Your task to perform on an android device: Search for usb-c to usb-a on walmart, select the first entry, add it to the cart, then select checkout. Image 0: 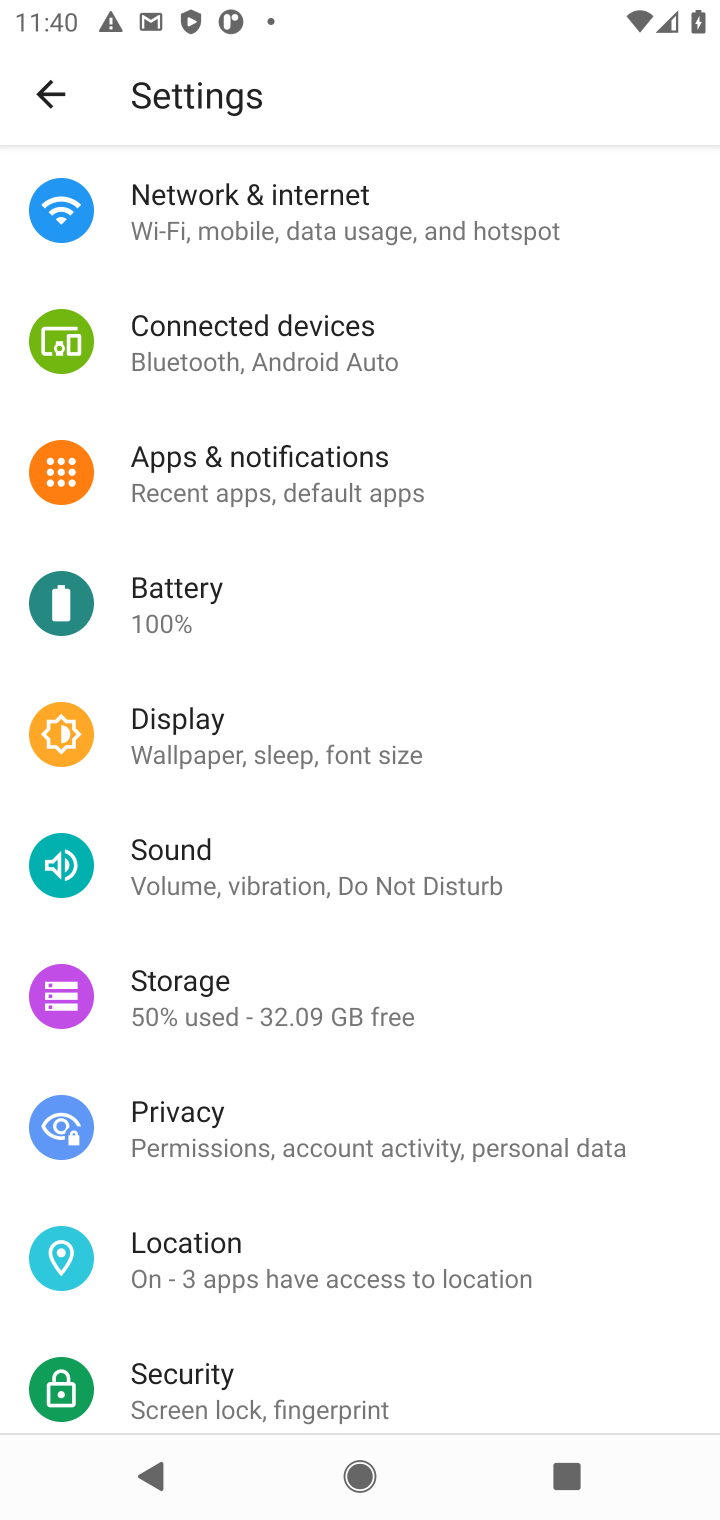
Step 0: press home button
Your task to perform on an android device: Search for usb-c to usb-a on walmart, select the first entry, add it to the cart, then select checkout. Image 1: 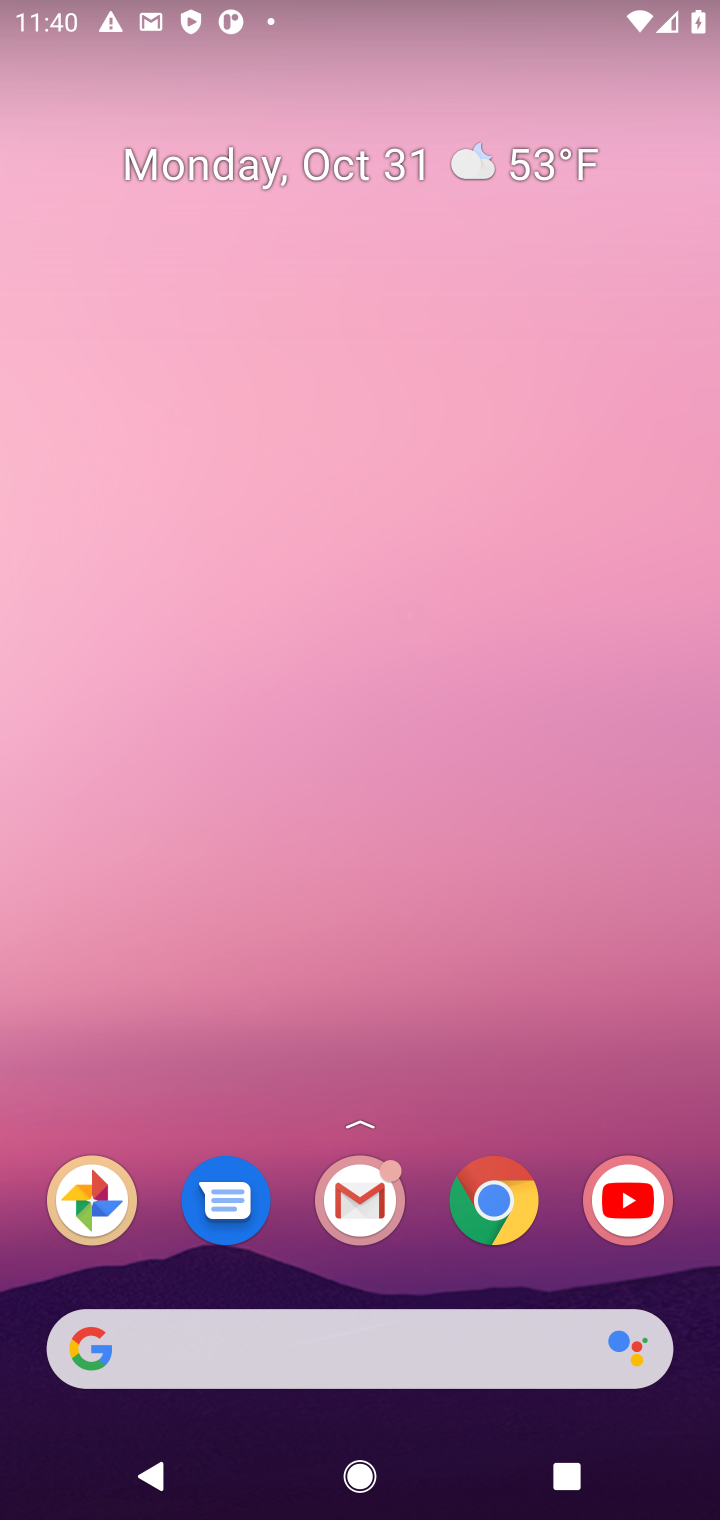
Step 1: click (496, 1204)
Your task to perform on an android device: Search for usb-c to usb-a on walmart, select the first entry, add it to the cart, then select checkout. Image 2: 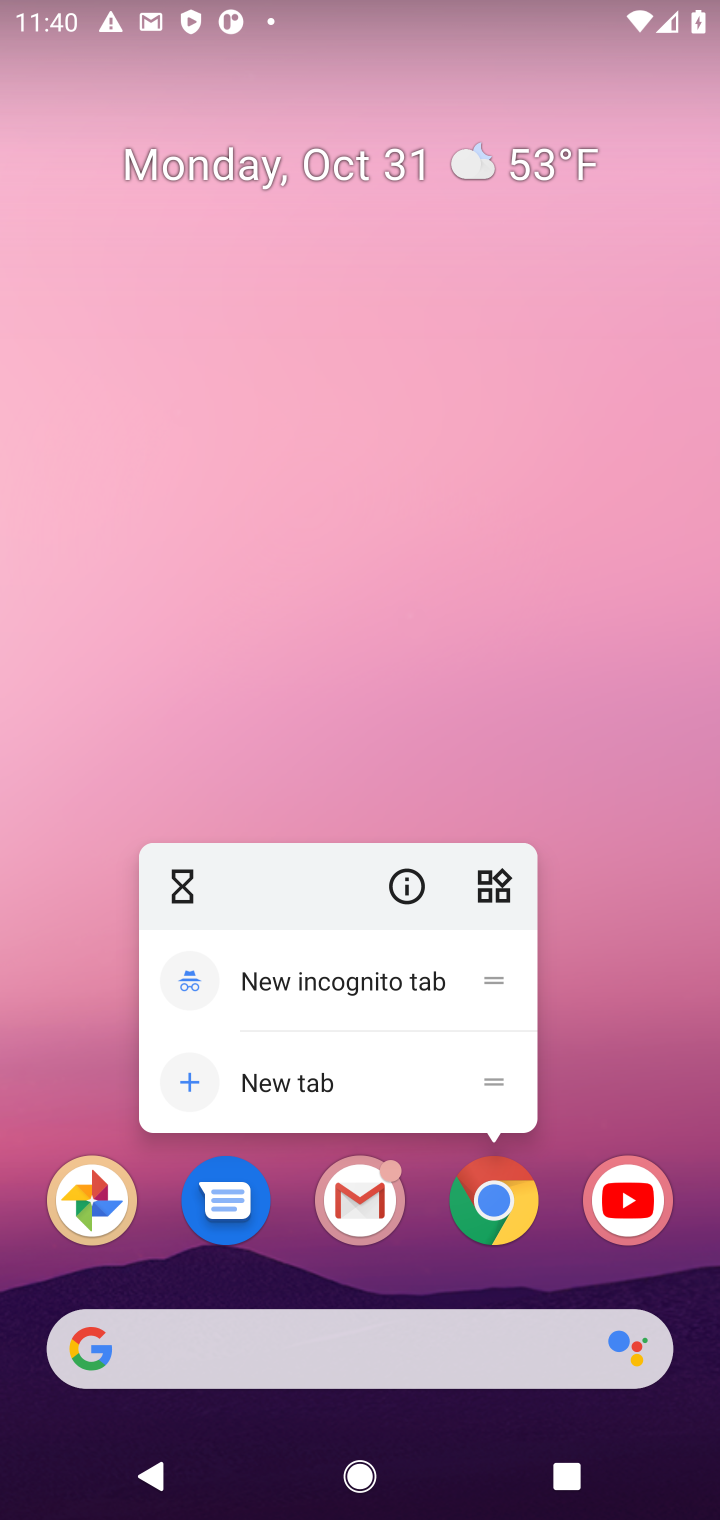
Step 2: click (502, 1211)
Your task to perform on an android device: Search for usb-c to usb-a on walmart, select the first entry, add it to the cart, then select checkout. Image 3: 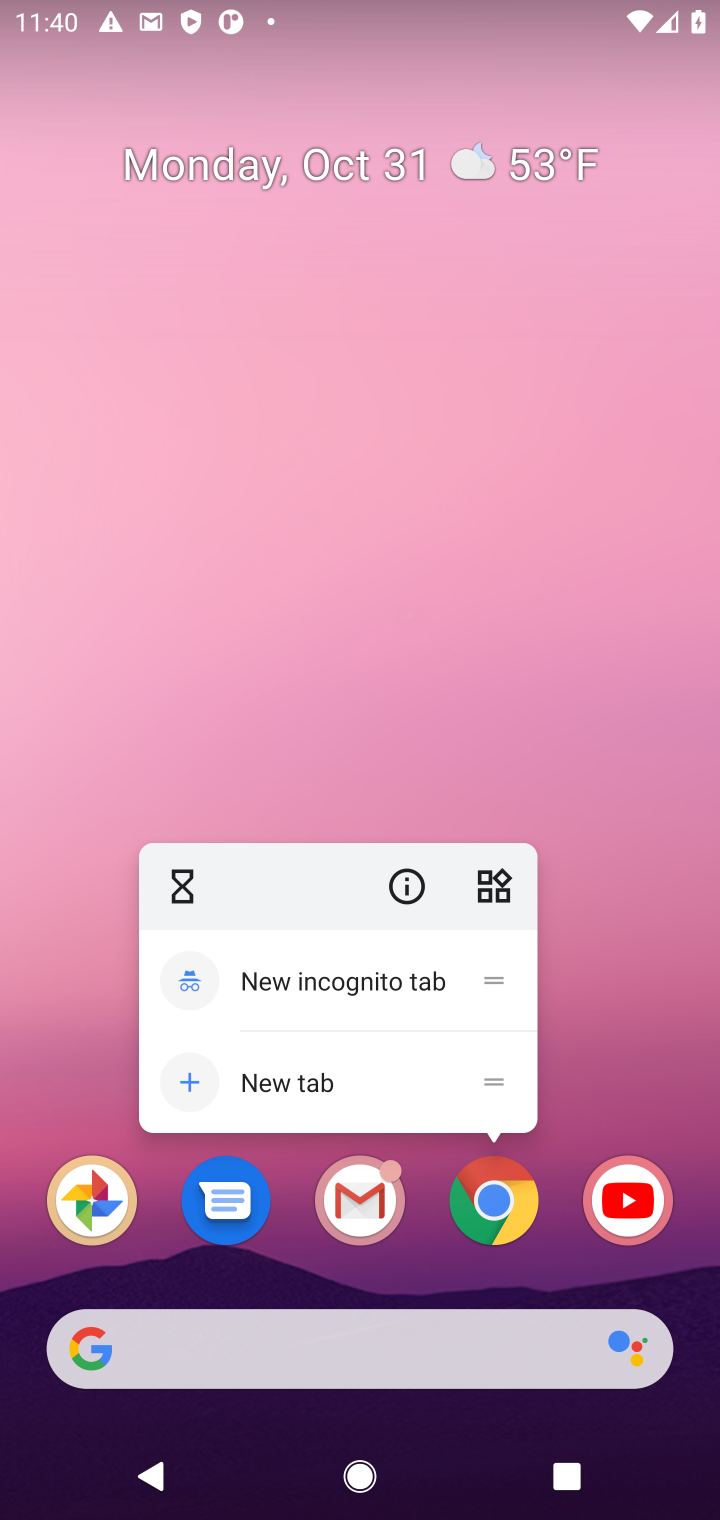
Step 3: click (494, 1234)
Your task to perform on an android device: Search for usb-c to usb-a on walmart, select the first entry, add it to the cart, then select checkout. Image 4: 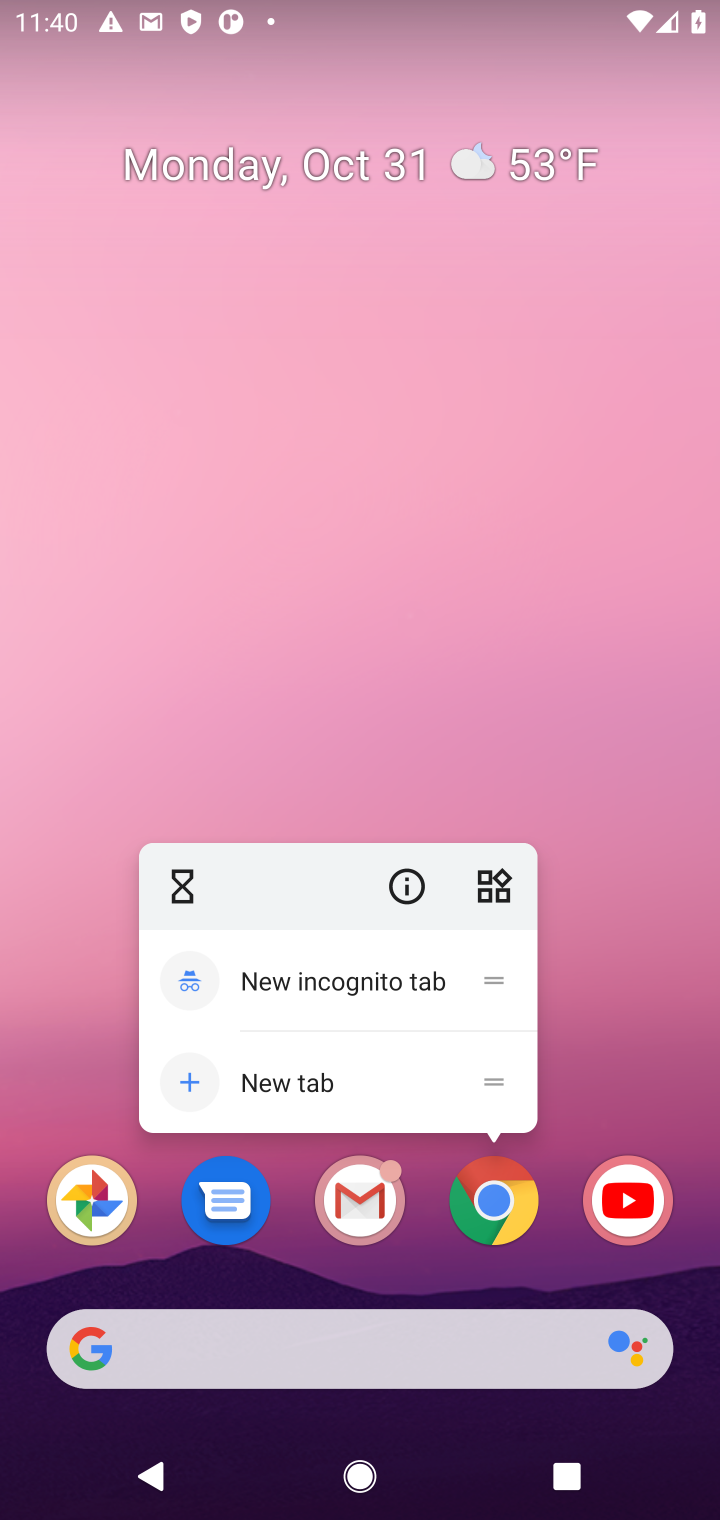
Step 4: click (496, 1216)
Your task to perform on an android device: Search for usb-c to usb-a on walmart, select the first entry, add it to the cart, then select checkout. Image 5: 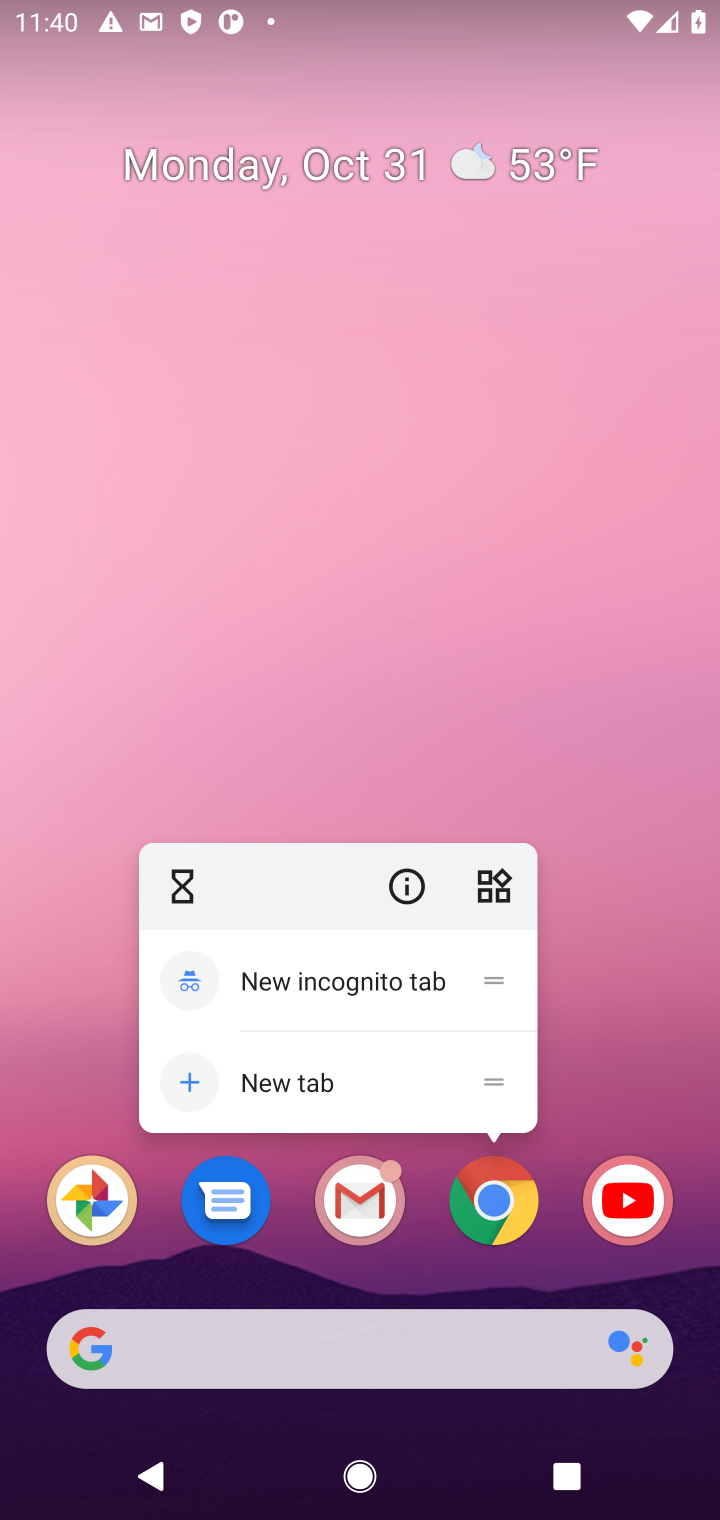
Step 5: click (502, 1203)
Your task to perform on an android device: Search for usb-c to usb-a on walmart, select the first entry, add it to the cart, then select checkout. Image 6: 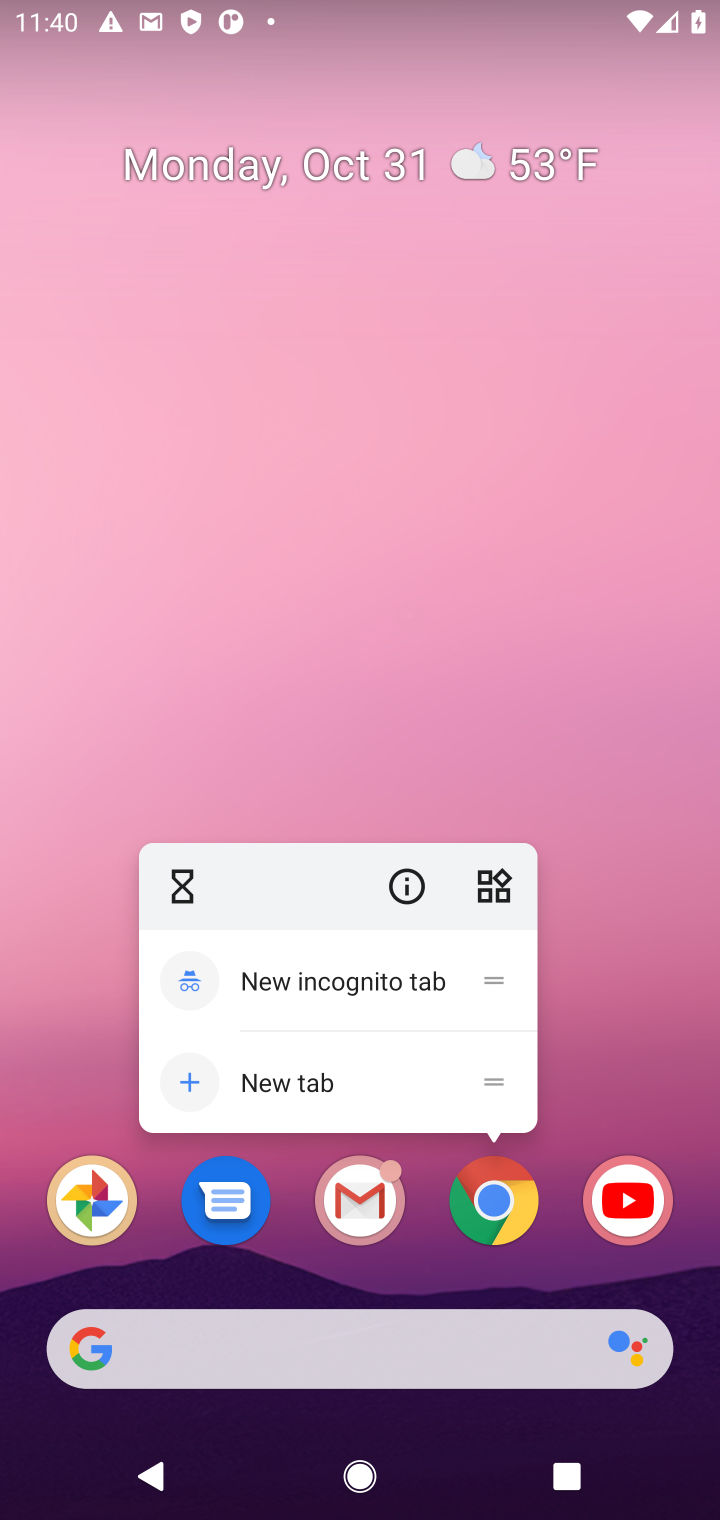
Step 6: click (503, 1213)
Your task to perform on an android device: Search for usb-c to usb-a on walmart, select the first entry, add it to the cart, then select checkout. Image 7: 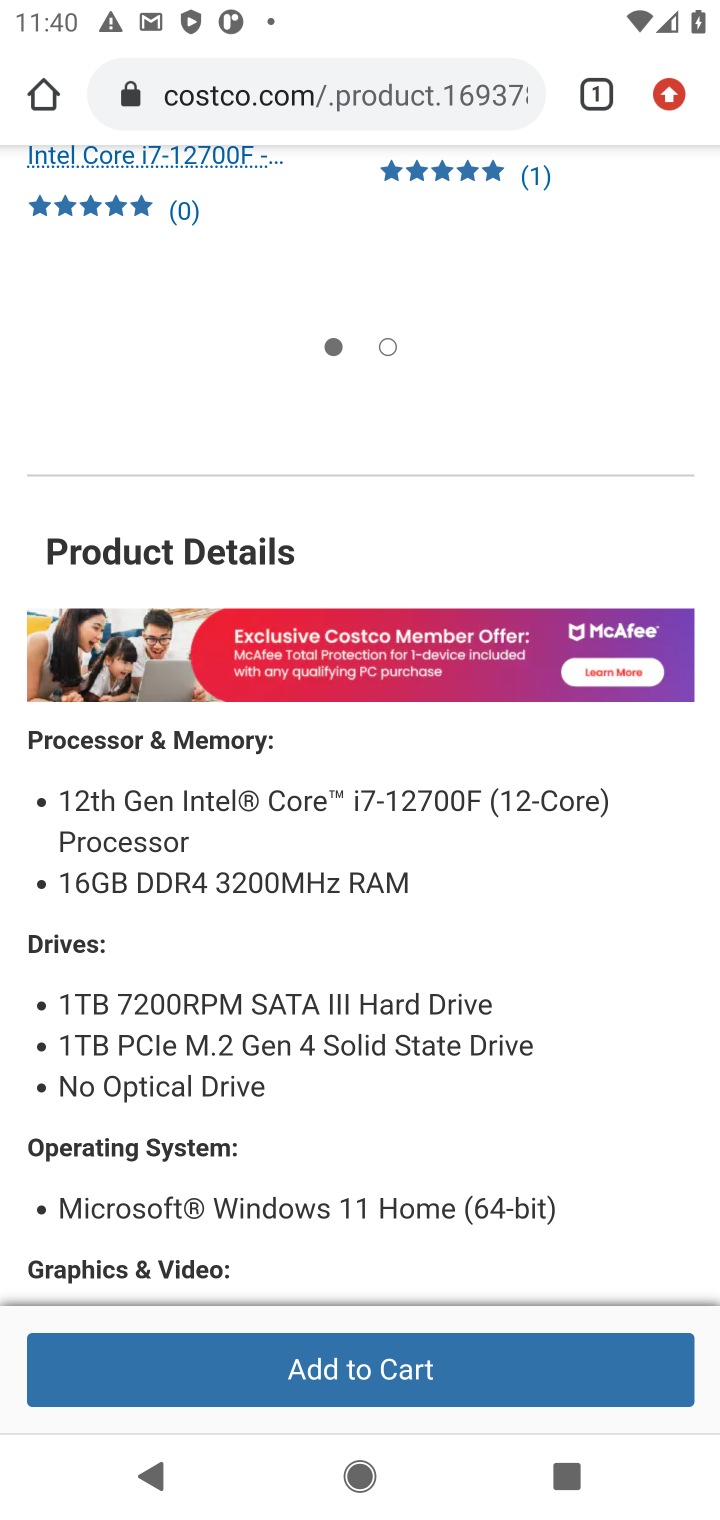
Step 7: click (499, 1231)
Your task to perform on an android device: Search for usb-c to usb-a on walmart, select the first entry, add it to the cart, then select checkout. Image 8: 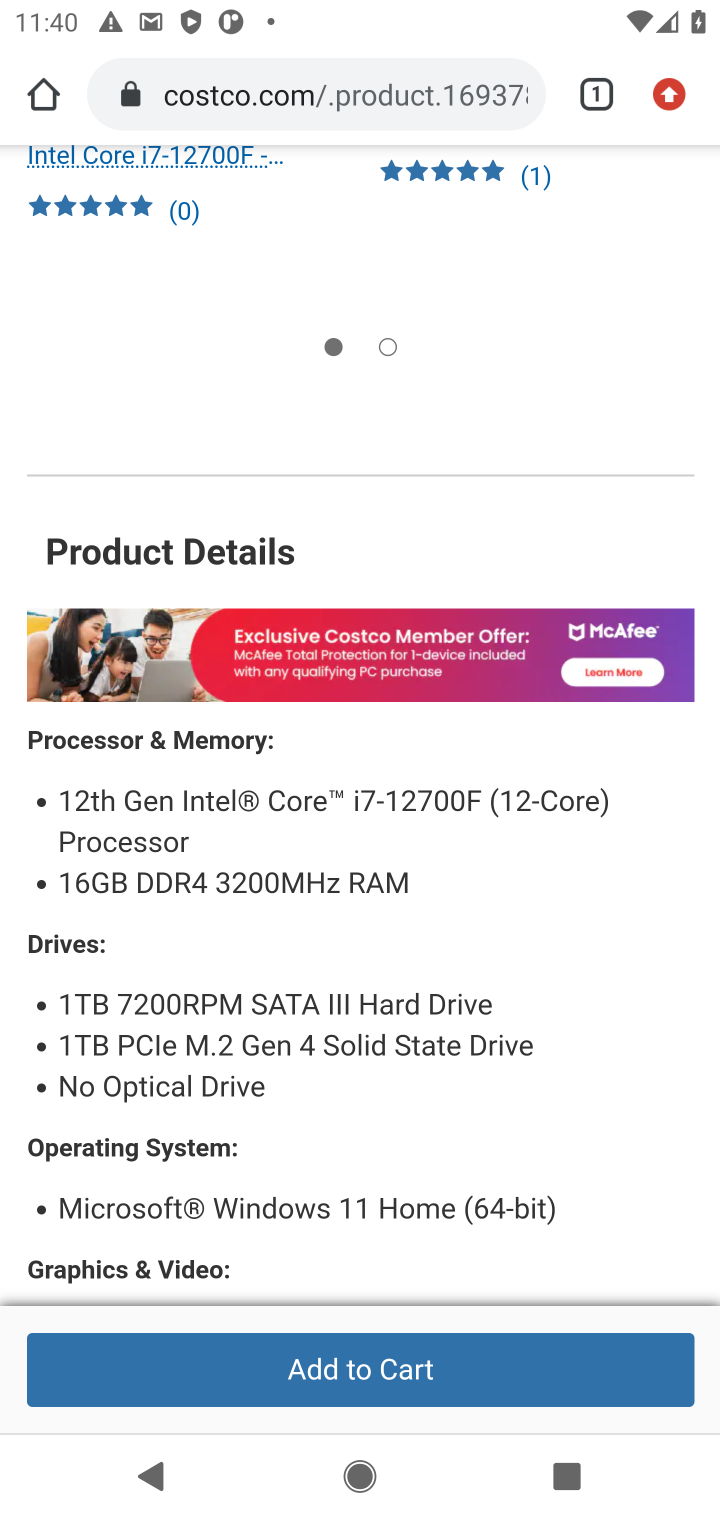
Step 8: click (174, 92)
Your task to perform on an android device: Search for usb-c to usb-a on walmart, select the first entry, add it to the cart, then select checkout. Image 9: 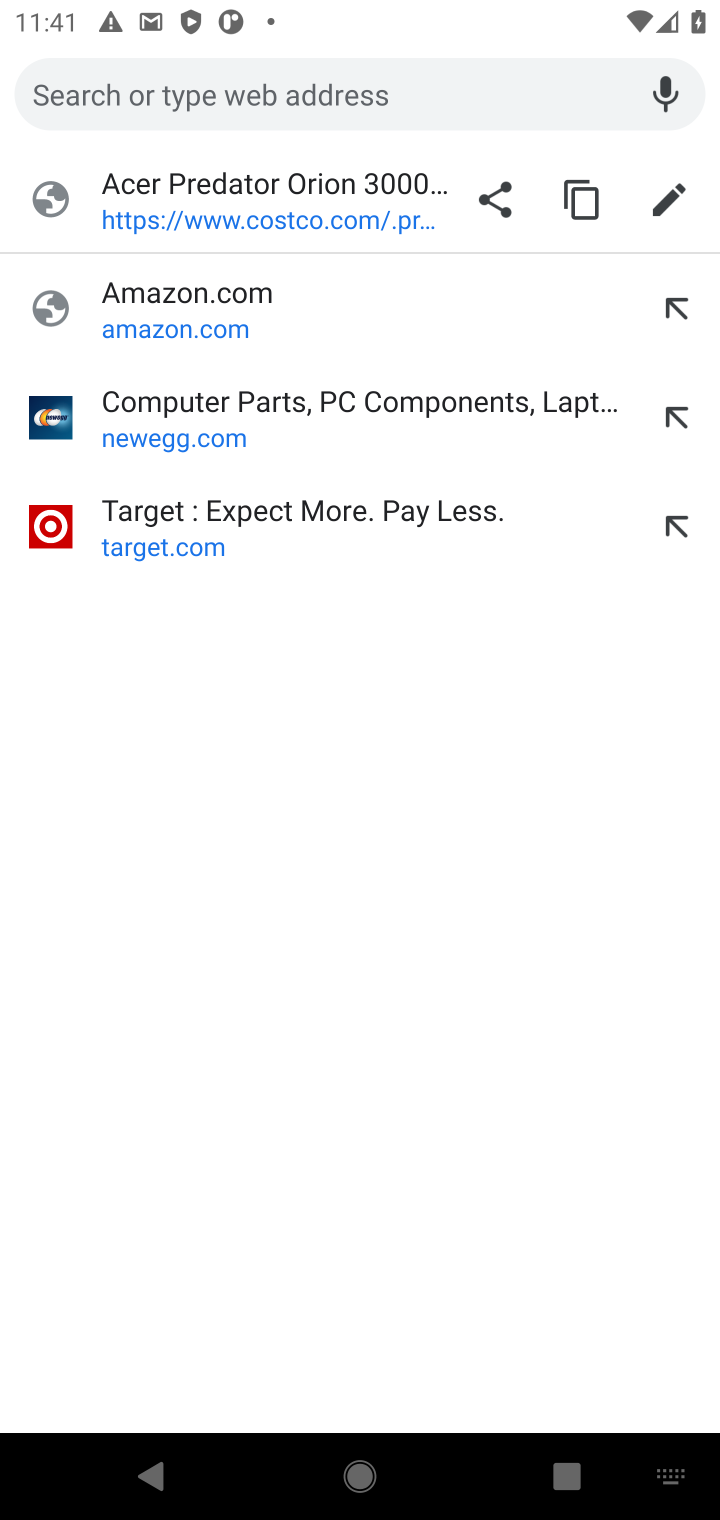
Step 9: type "walmart"
Your task to perform on an android device: Search for usb-c to usb-a on walmart, select the first entry, add it to the cart, then select checkout. Image 10: 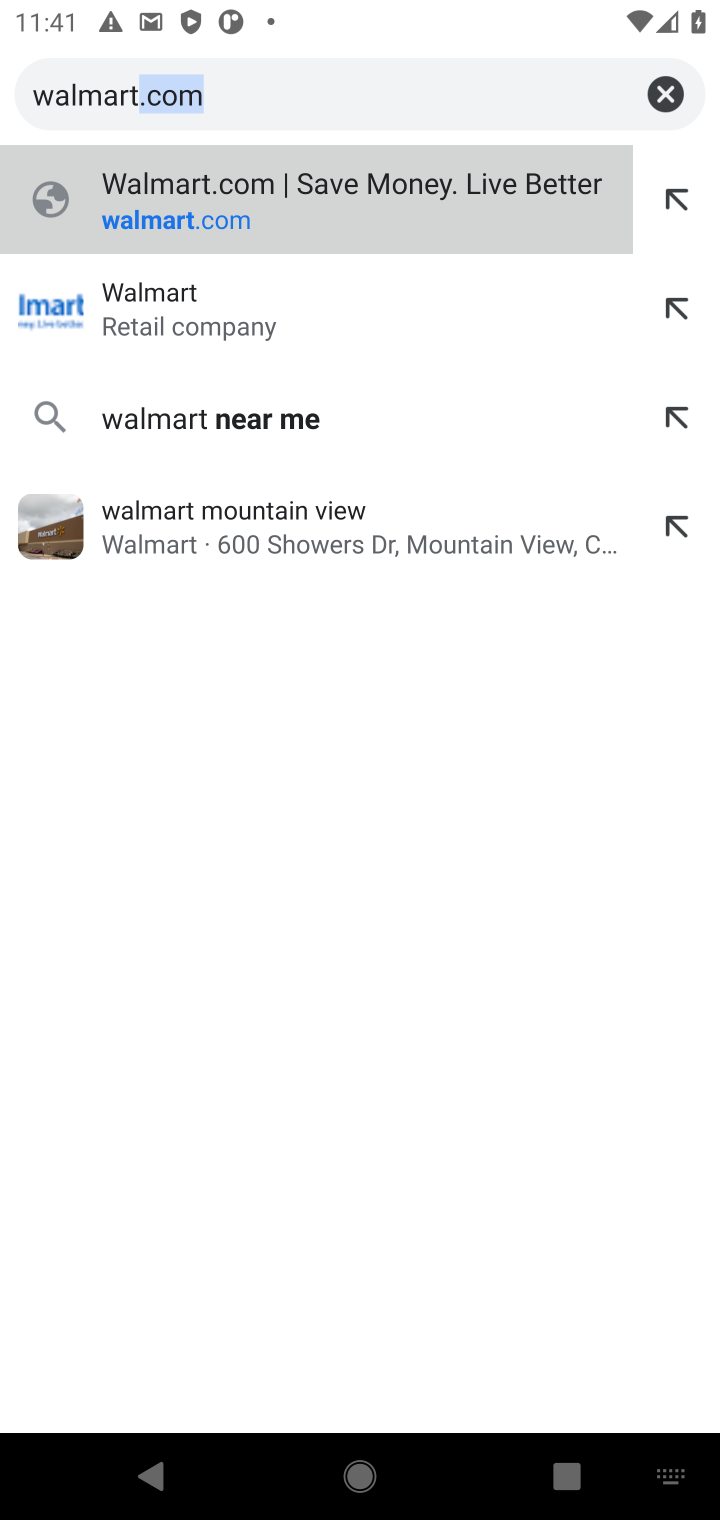
Step 10: type ""
Your task to perform on an android device: Search for usb-c to usb-a on walmart, select the first entry, add it to the cart, then select checkout. Image 11: 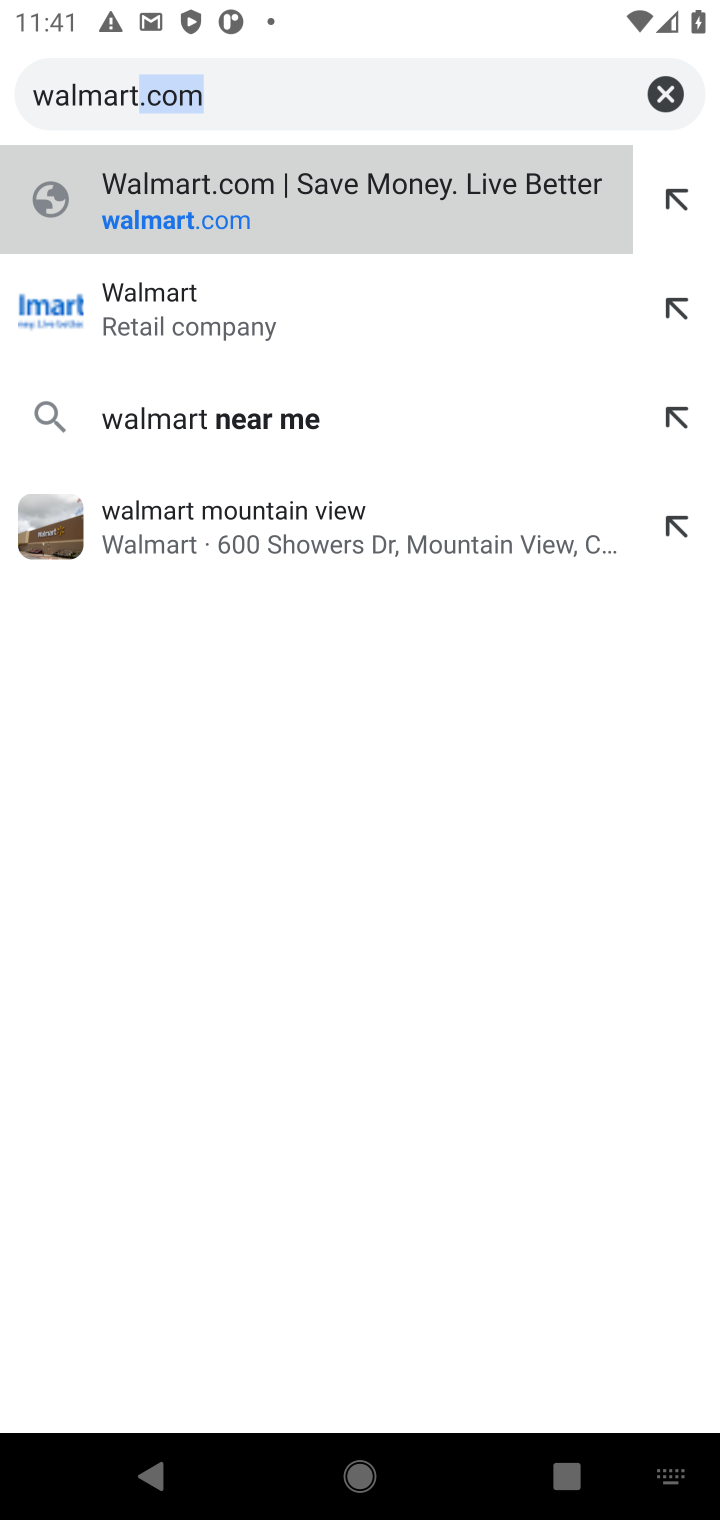
Step 11: click (444, 187)
Your task to perform on an android device: Search for usb-c to usb-a on walmart, select the first entry, add it to the cart, then select checkout. Image 12: 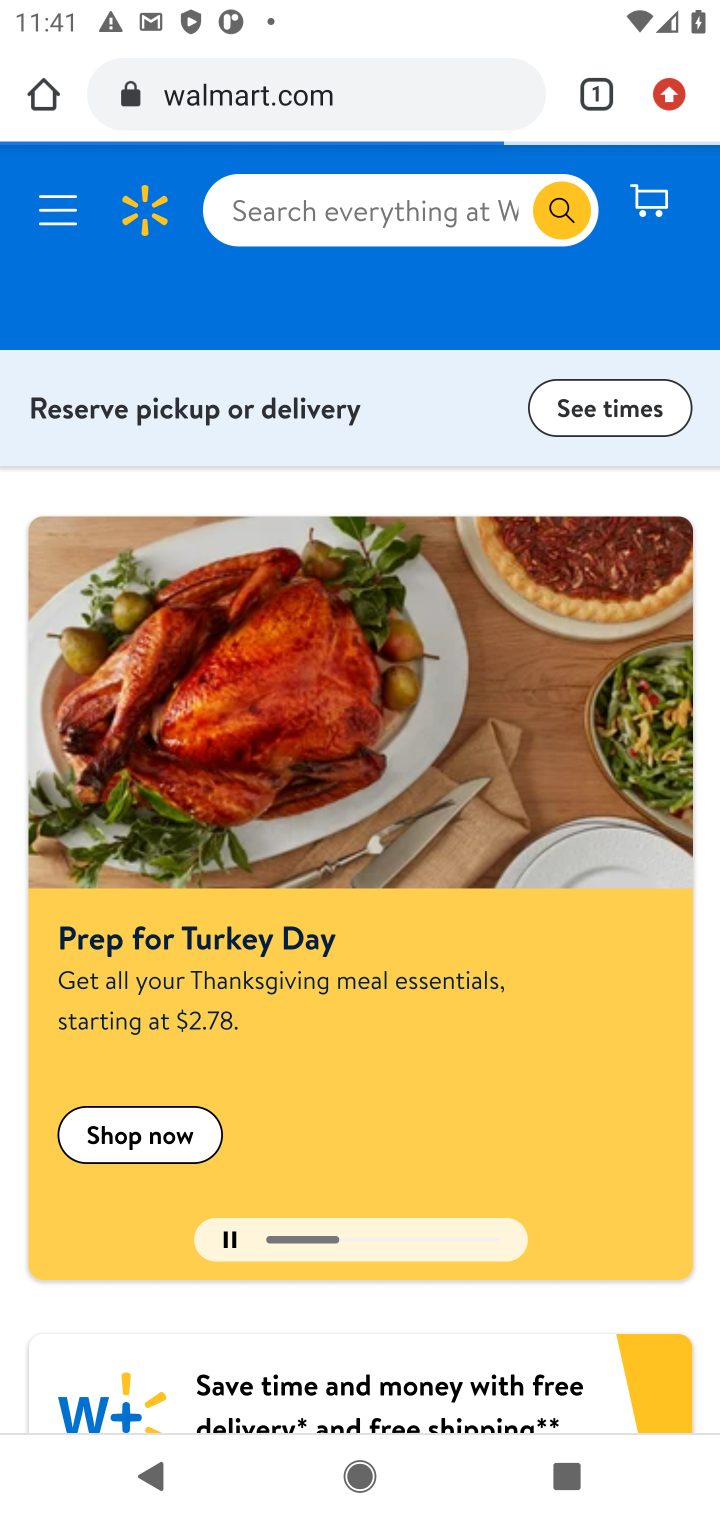
Step 12: click (420, 216)
Your task to perform on an android device: Search for usb-c to usb-a on walmart, select the first entry, add it to the cart, then select checkout. Image 13: 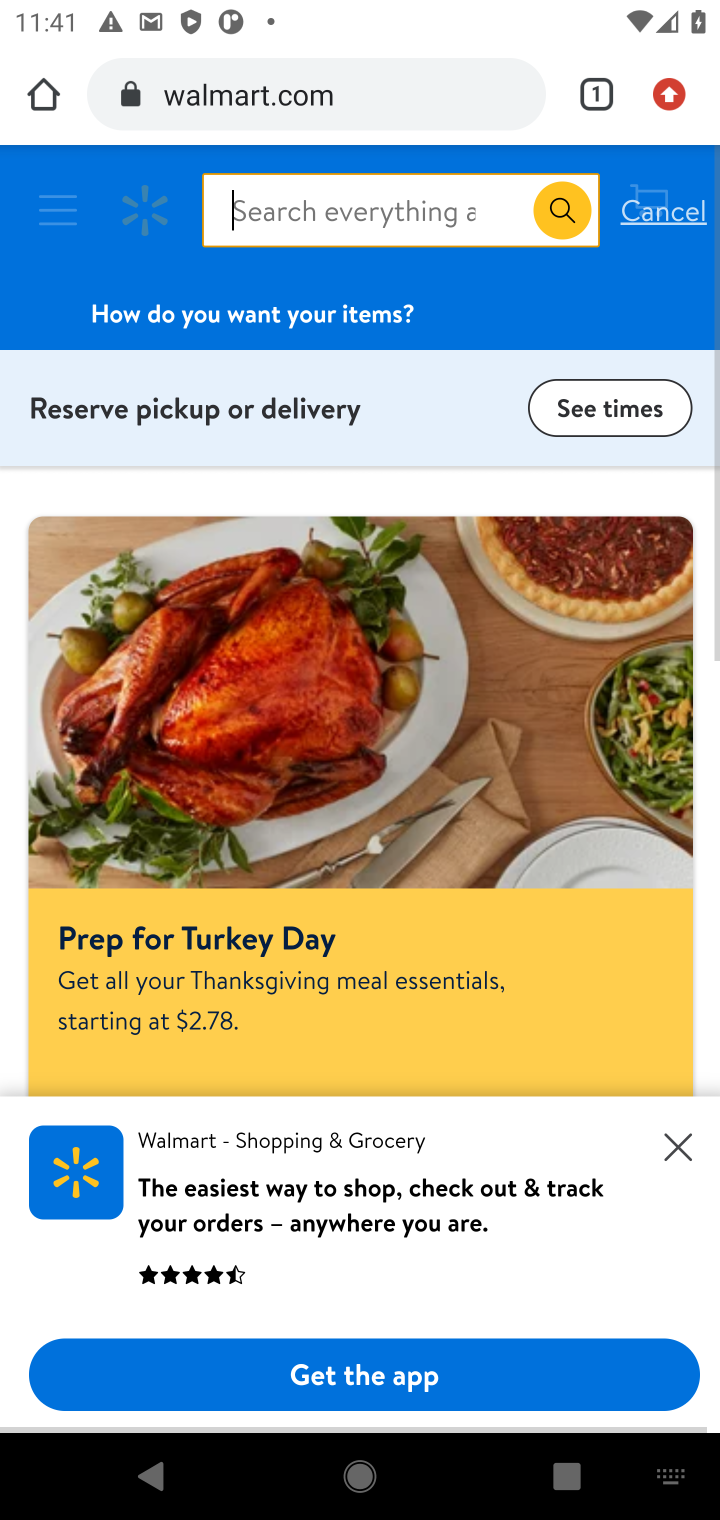
Step 13: click (298, 223)
Your task to perform on an android device: Search for usb-c to usb-a on walmart, select the first entry, add it to the cart, then select checkout. Image 14: 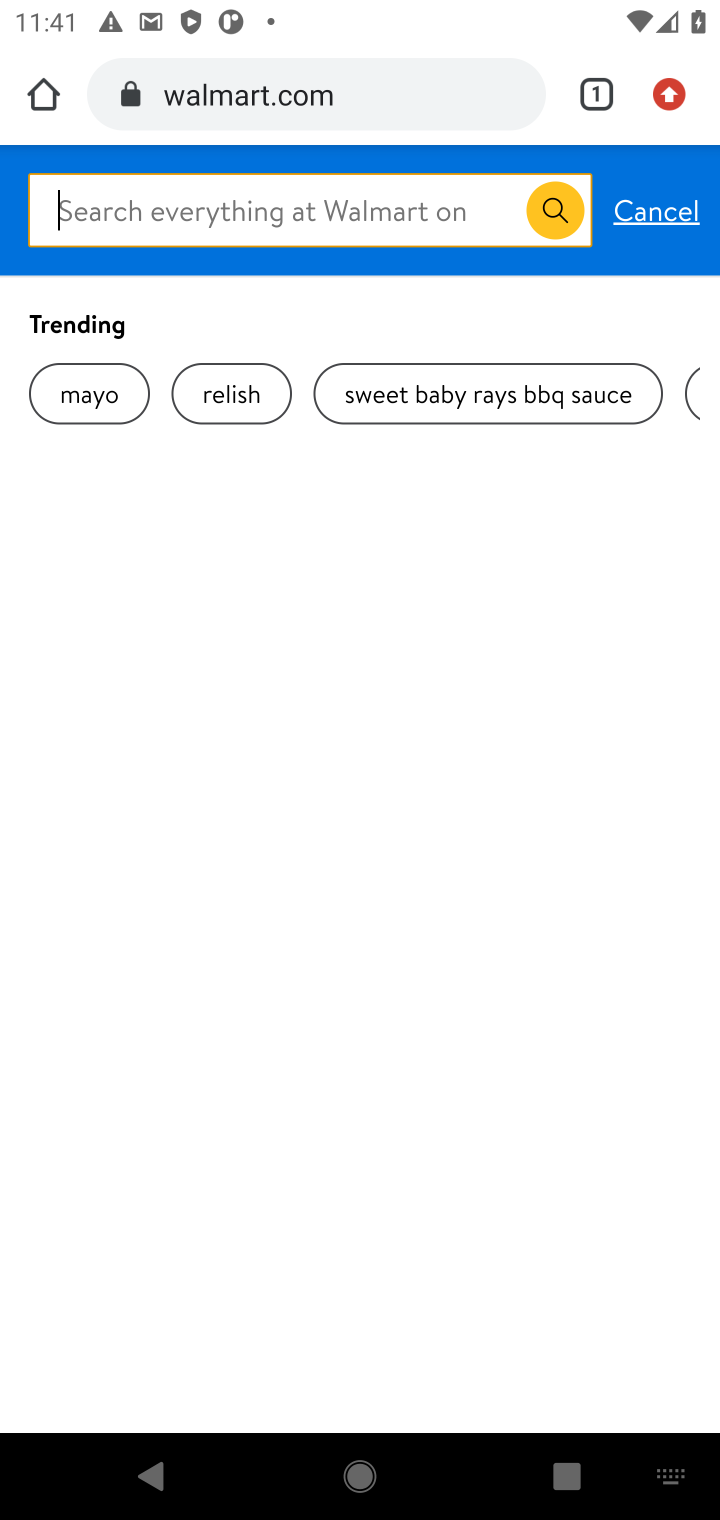
Step 14: type "usb-c to usb-a "
Your task to perform on an android device: Search for usb-c to usb-a on walmart, select the first entry, add it to the cart, then select checkout. Image 15: 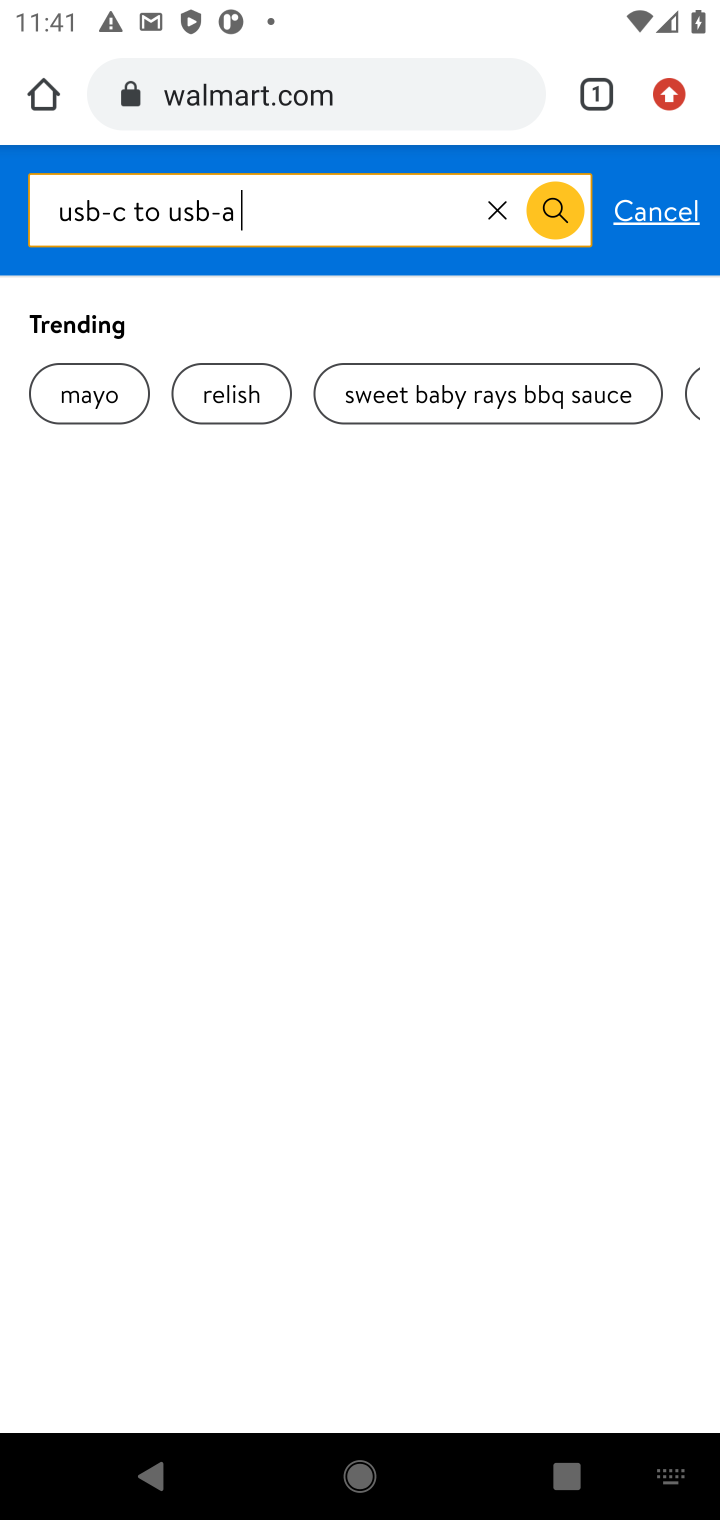
Step 15: type ""
Your task to perform on an android device: Search for usb-c to usb-a on walmart, select the first entry, add it to the cart, then select checkout. Image 16: 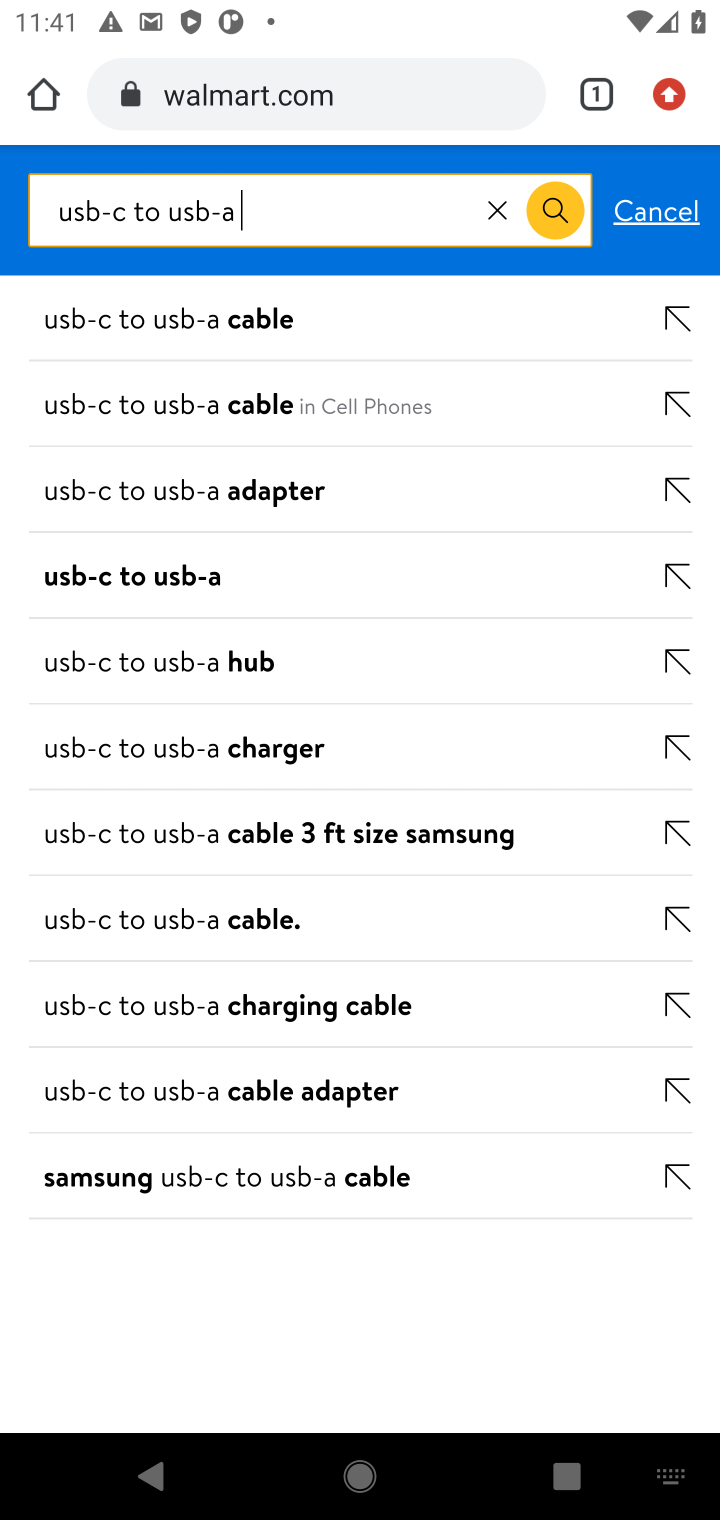
Step 16: click (190, 310)
Your task to perform on an android device: Search for usb-c to usb-a on walmart, select the first entry, add it to the cart, then select checkout. Image 17: 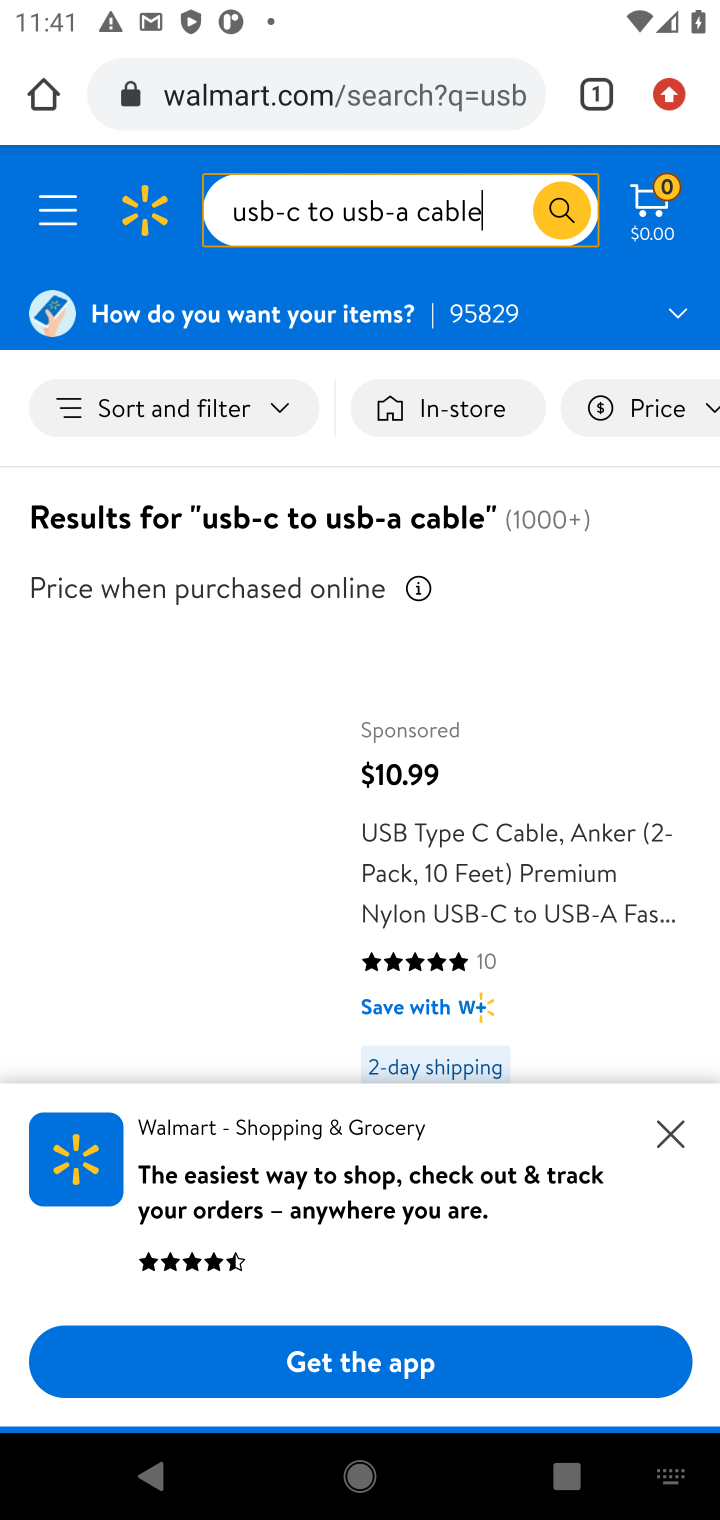
Step 17: click (685, 1138)
Your task to perform on an android device: Search for usb-c to usb-a on walmart, select the first entry, add it to the cart, then select checkout. Image 18: 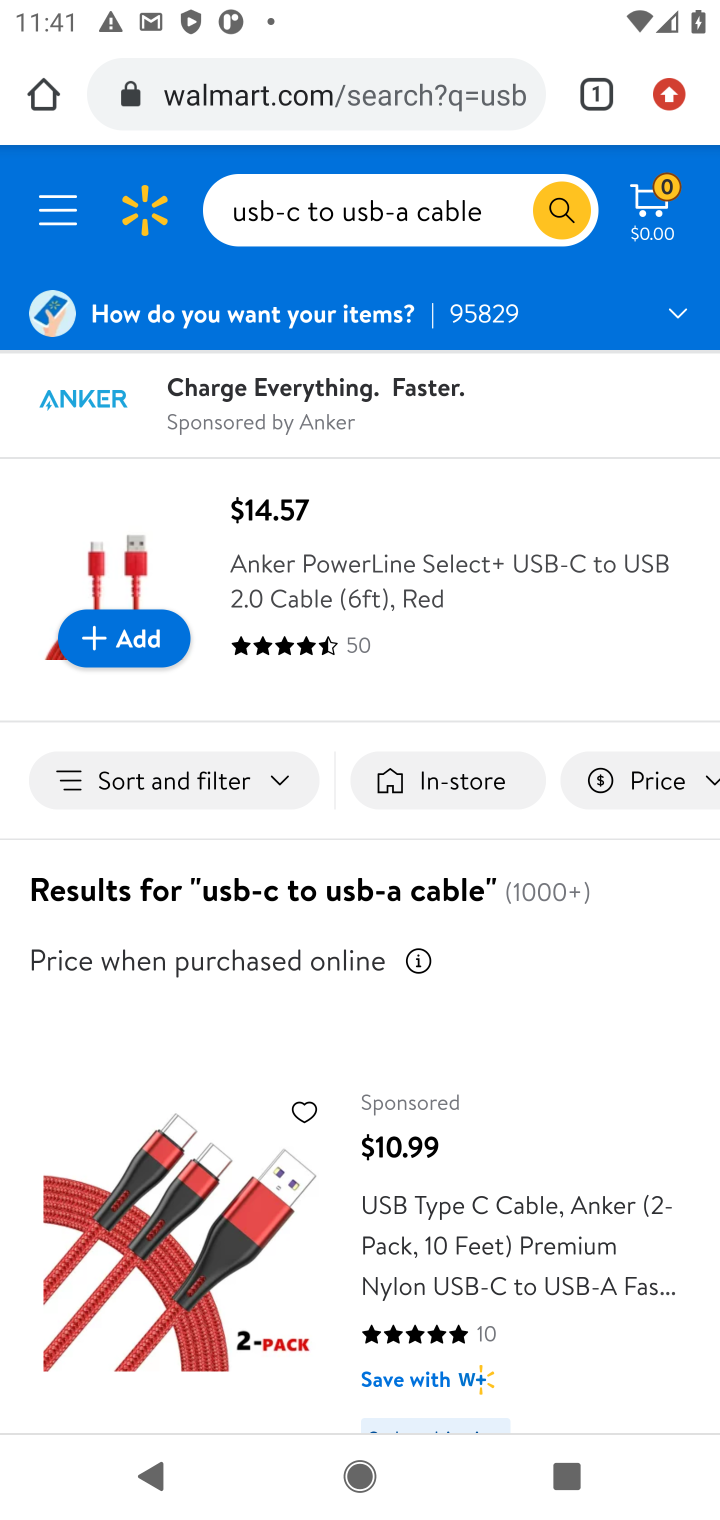
Step 18: click (606, 1201)
Your task to perform on an android device: Search for usb-c to usb-a on walmart, select the first entry, add it to the cart, then select checkout. Image 19: 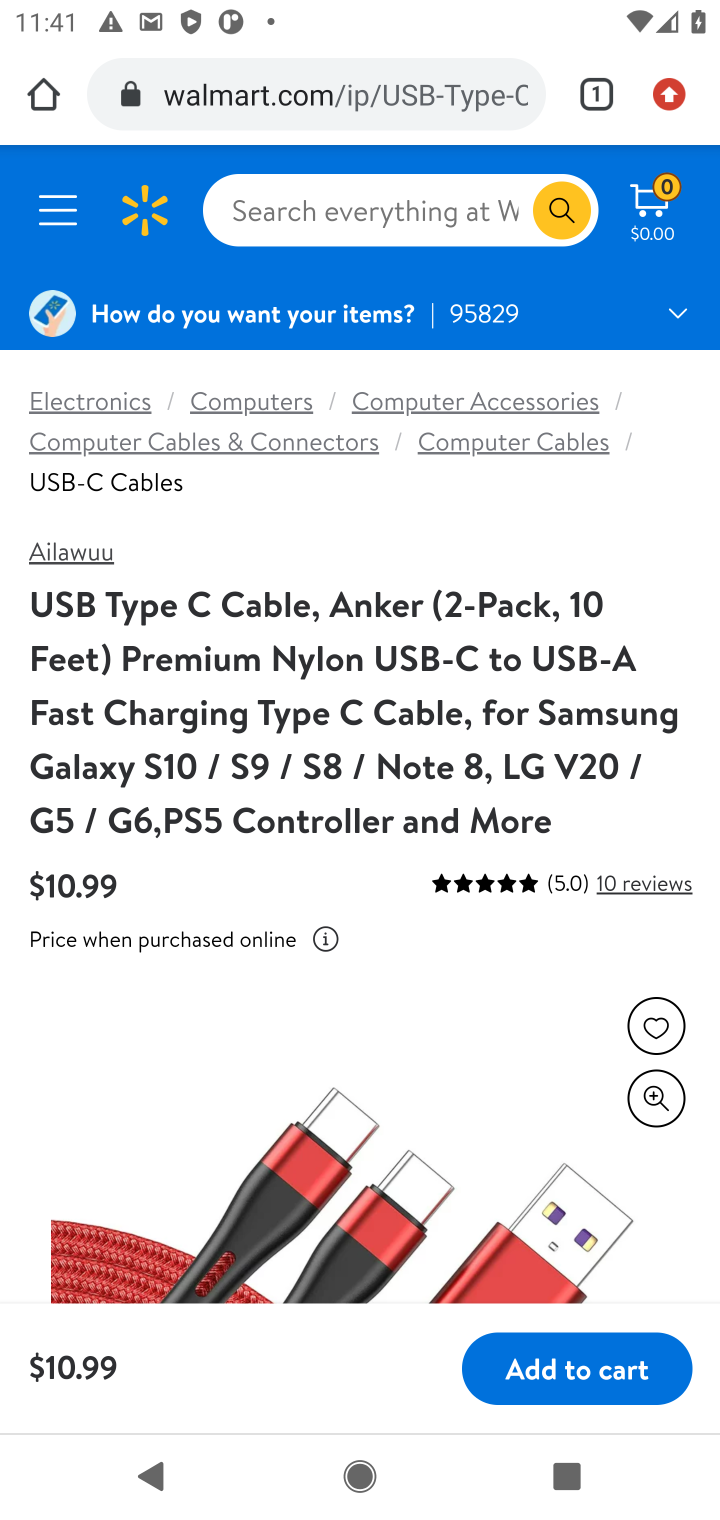
Step 19: click (531, 1378)
Your task to perform on an android device: Search for usb-c to usb-a on walmart, select the first entry, add it to the cart, then select checkout. Image 20: 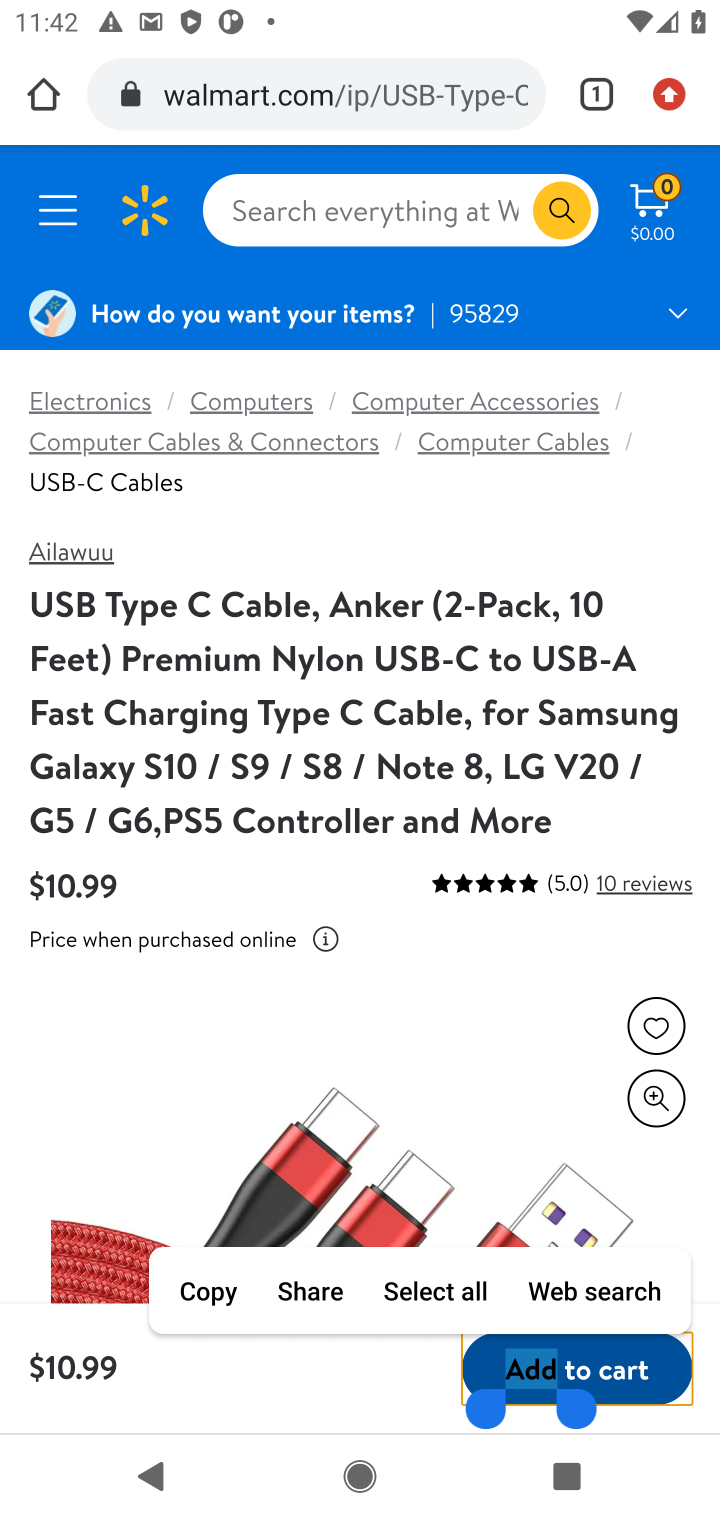
Step 20: click (583, 1347)
Your task to perform on an android device: Search for usb-c to usb-a on walmart, select the first entry, add it to the cart, then select checkout. Image 21: 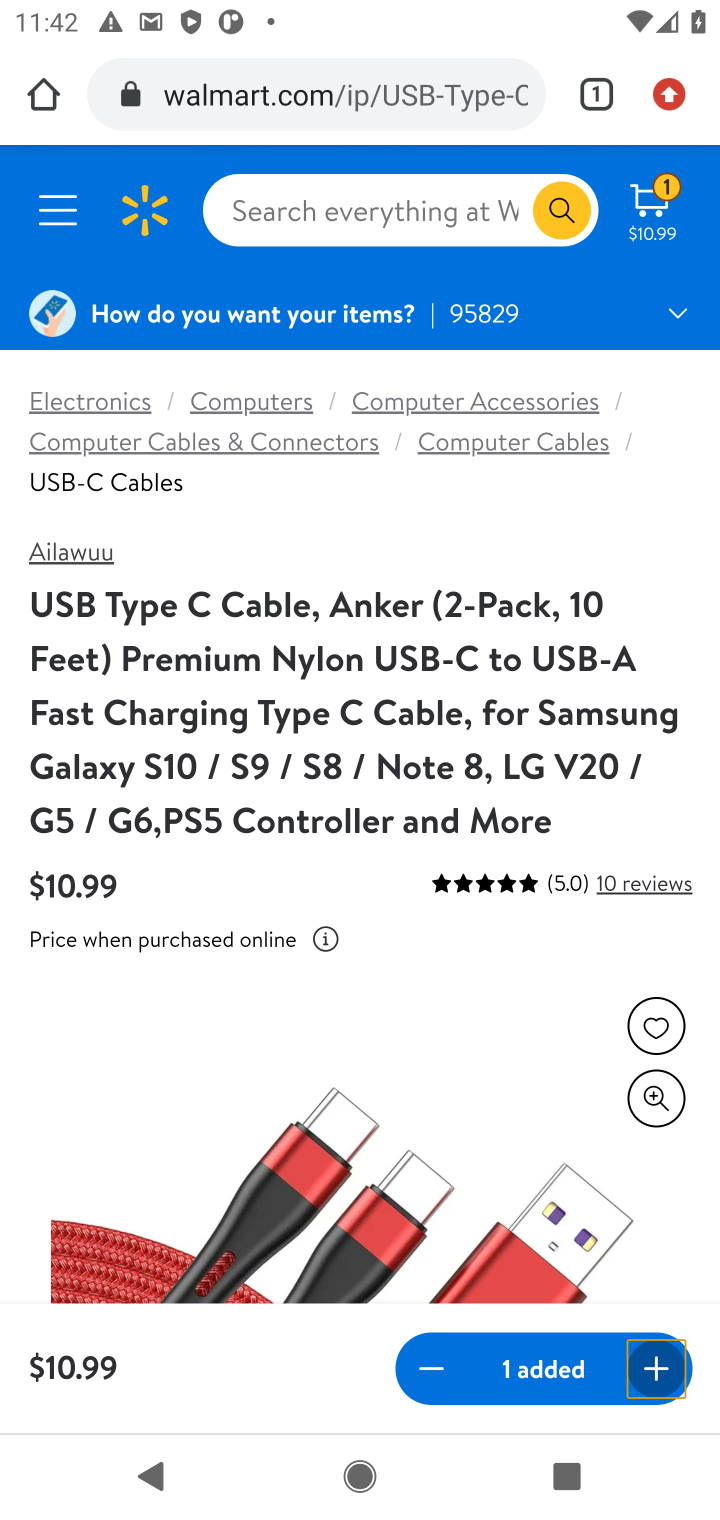
Step 21: click (650, 210)
Your task to perform on an android device: Search for usb-c to usb-a on walmart, select the first entry, add it to the cart, then select checkout. Image 22: 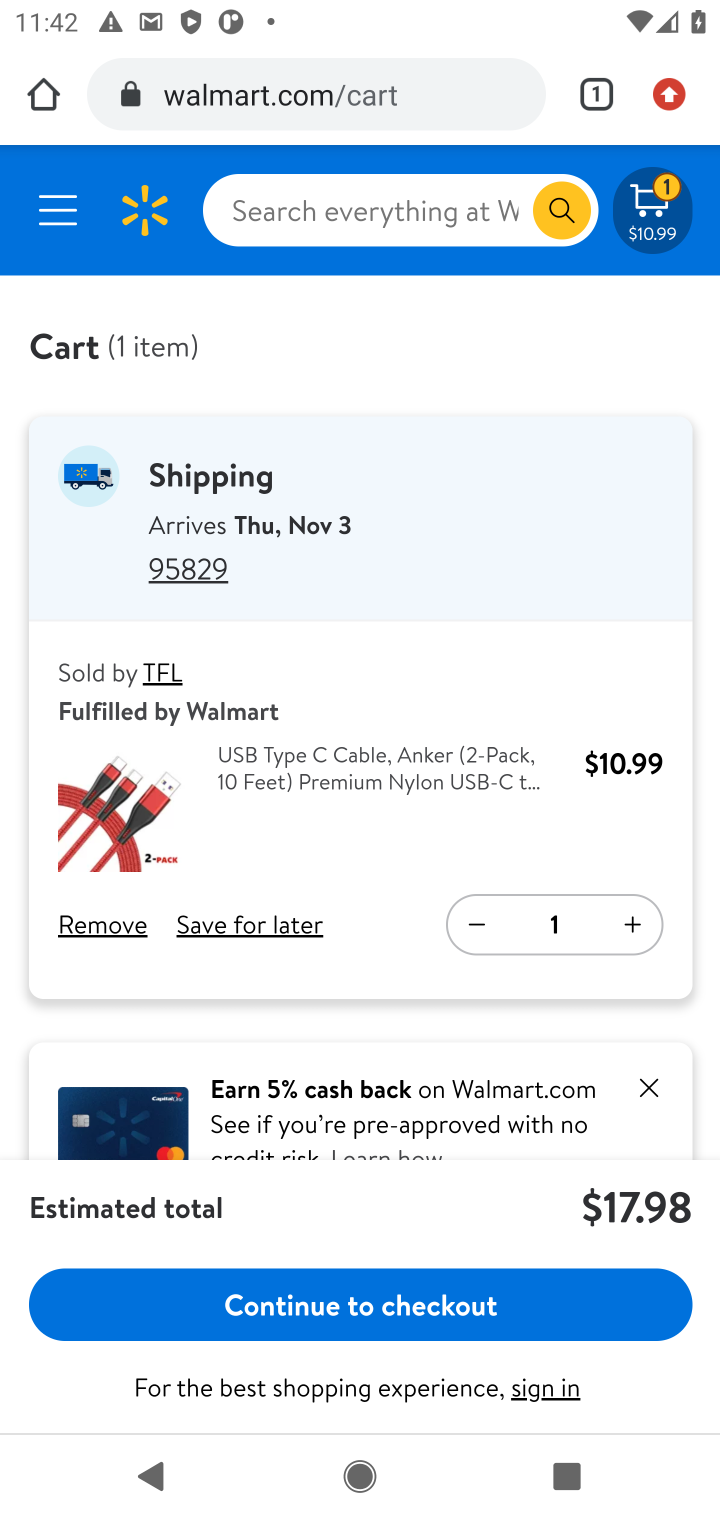
Step 22: click (514, 1271)
Your task to perform on an android device: Search for usb-c to usb-a on walmart, select the first entry, add it to the cart, then select checkout. Image 23: 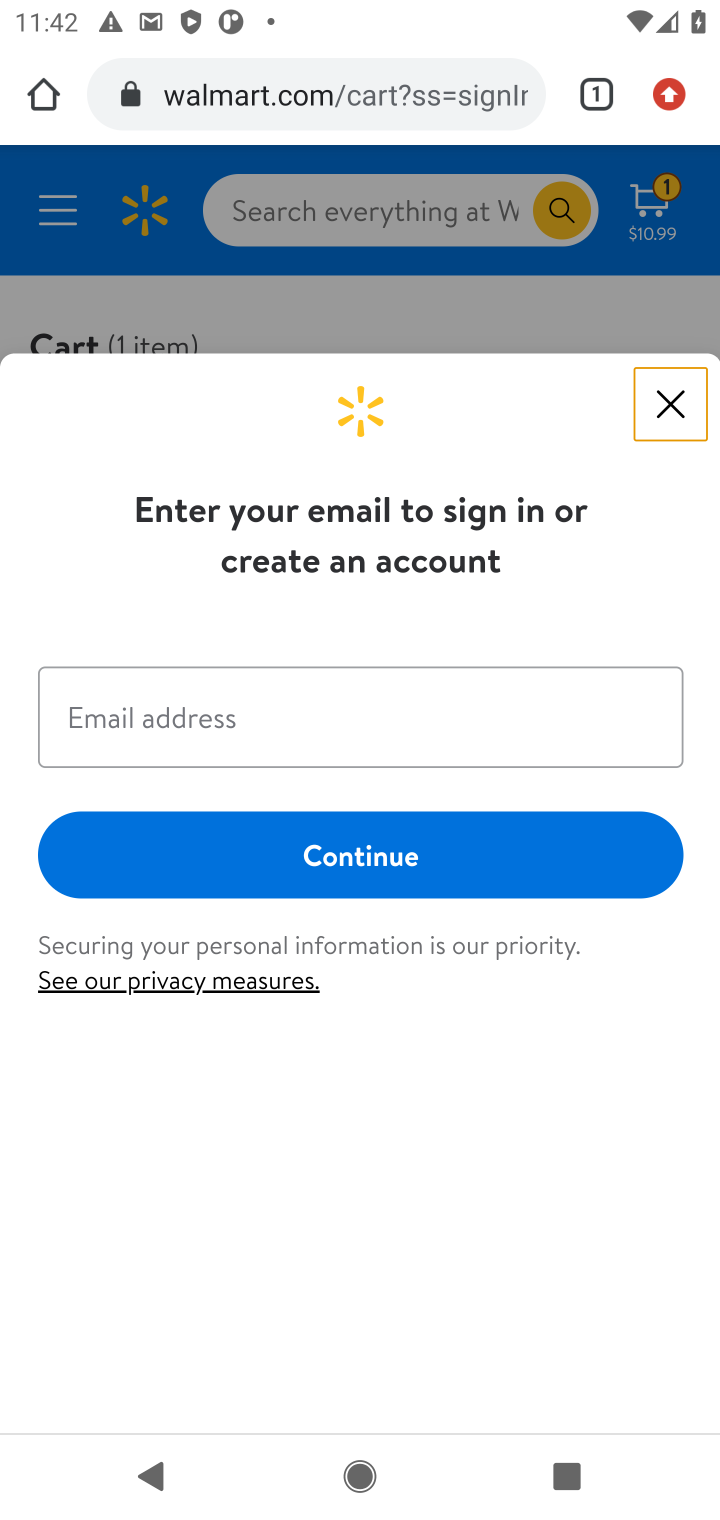
Step 23: click (502, 1295)
Your task to perform on an android device: Search for usb-c to usb-a on walmart, select the first entry, add it to the cart, then select checkout. Image 24: 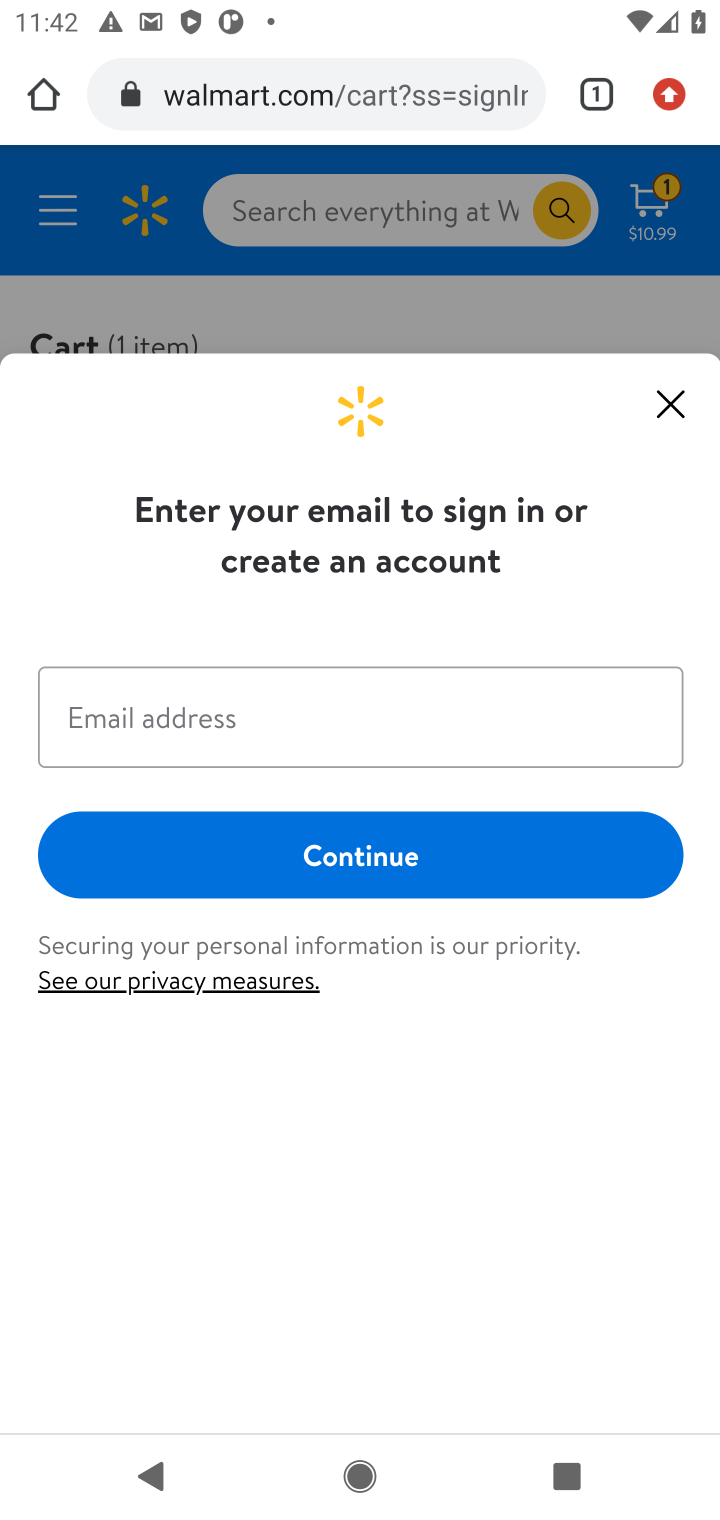
Step 24: click (652, 391)
Your task to perform on an android device: Search for usb-c to usb-a on walmart, select the first entry, add it to the cart, then select checkout. Image 25: 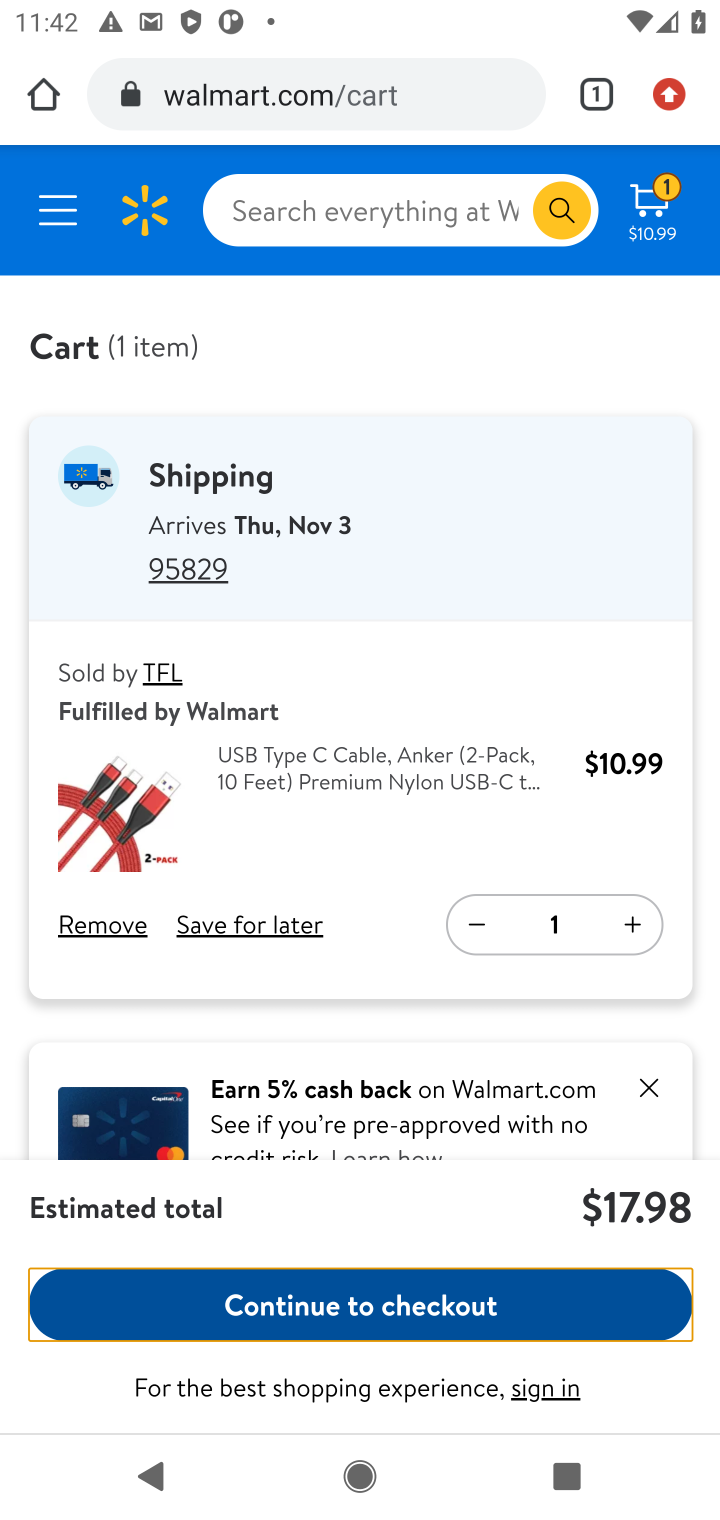
Step 25: click (652, 391)
Your task to perform on an android device: Search for usb-c to usb-a on walmart, select the first entry, add it to the cart, then select checkout. Image 26: 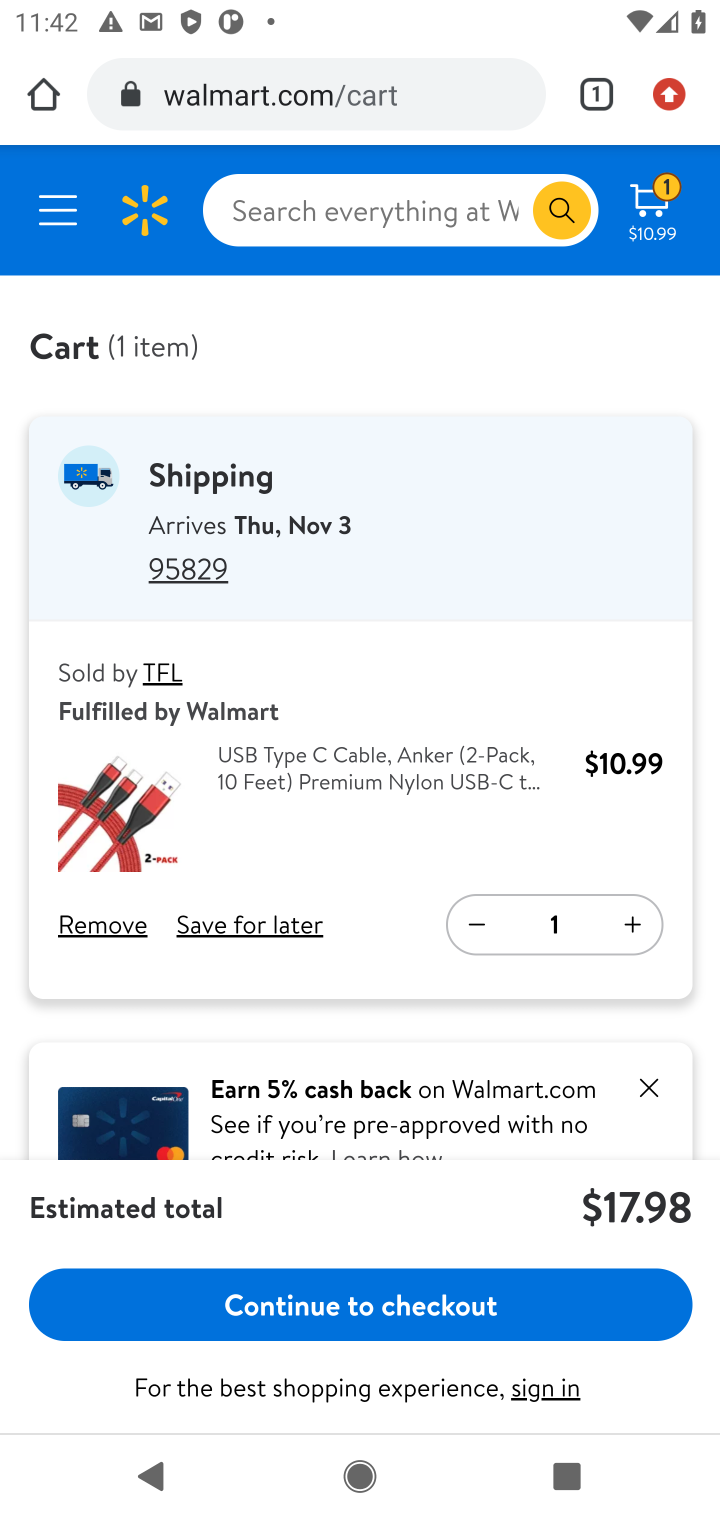
Step 26: click (488, 1337)
Your task to perform on an android device: Search for usb-c to usb-a on walmart, select the first entry, add it to the cart, then select checkout. Image 27: 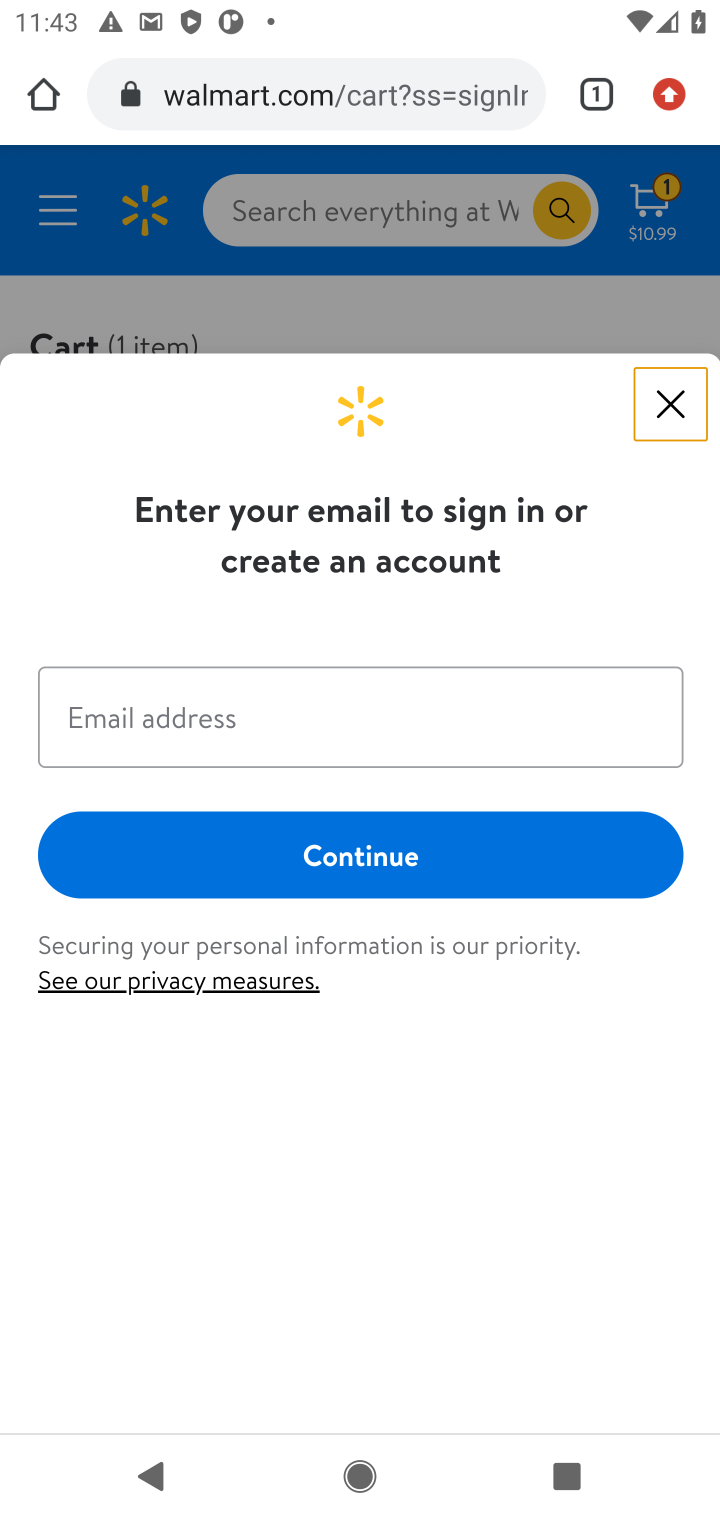
Step 27: click (685, 410)
Your task to perform on an android device: Search for usb-c to usb-a on walmart, select the first entry, add it to the cart, then select checkout. Image 28: 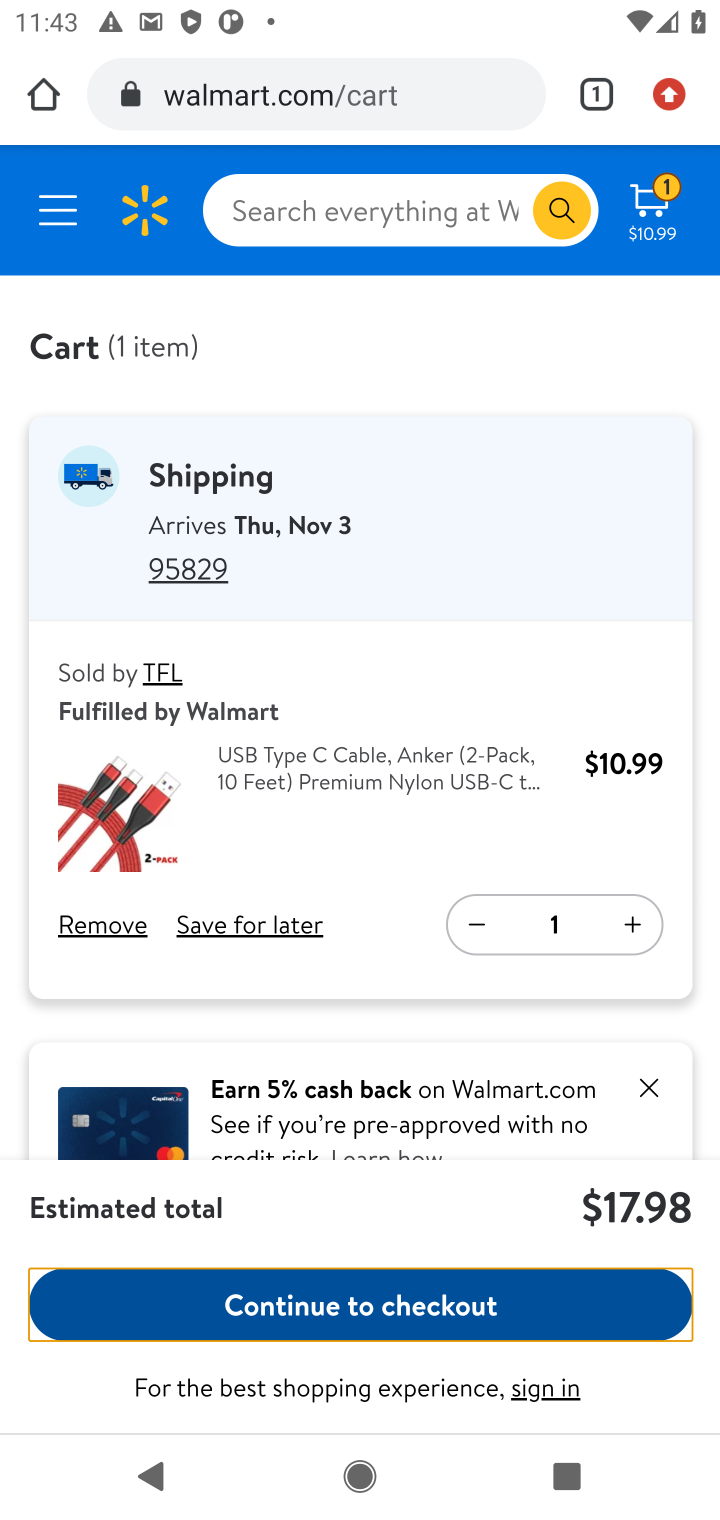
Step 28: click (671, 388)
Your task to perform on an android device: Search for usb-c to usb-a on walmart, select the first entry, add it to the cart, then select checkout. Image 29: 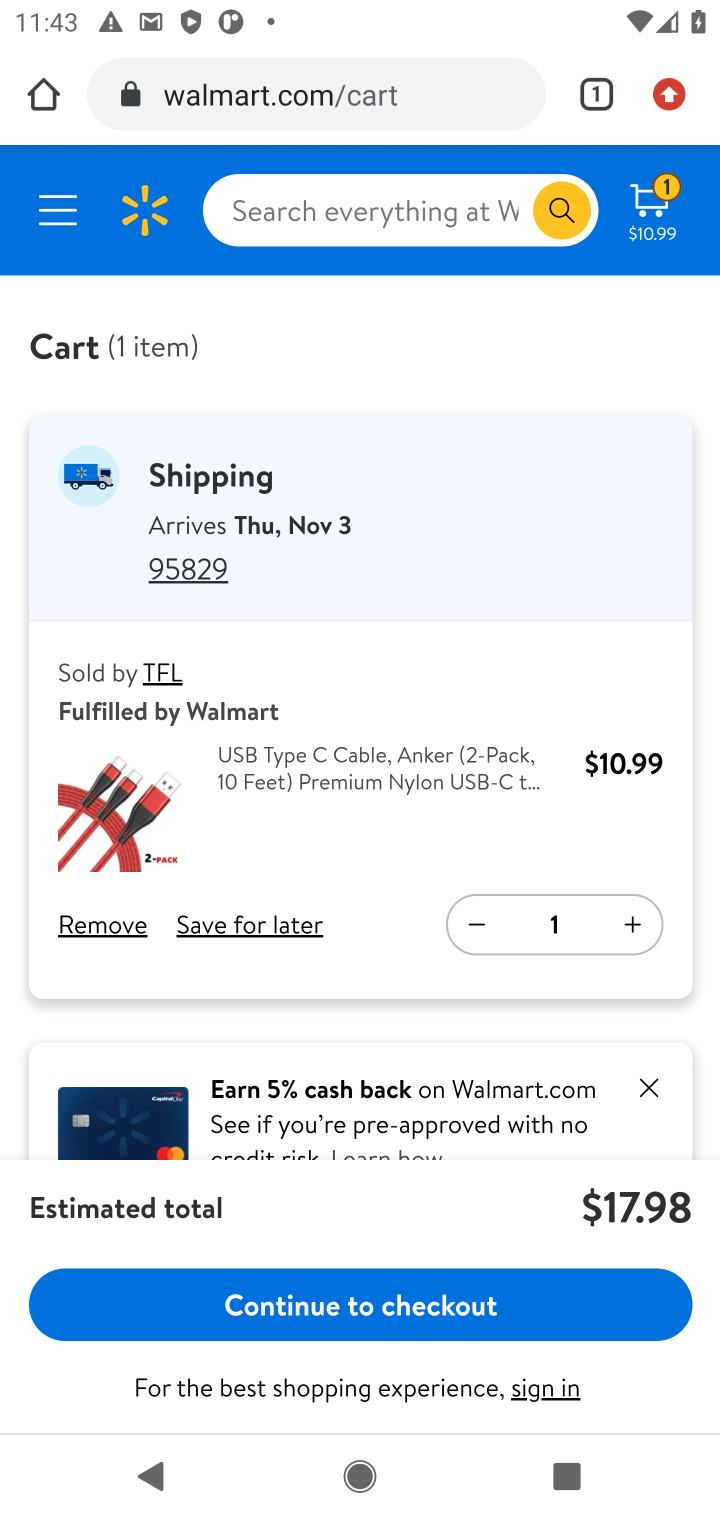
Step 29: drag from (483, 632) to (487, 451)
Your task to perform on an android device: Search for usb-c to usb-a on walmart, select the first entry, add it to the cart, then select checkout. Image 30: 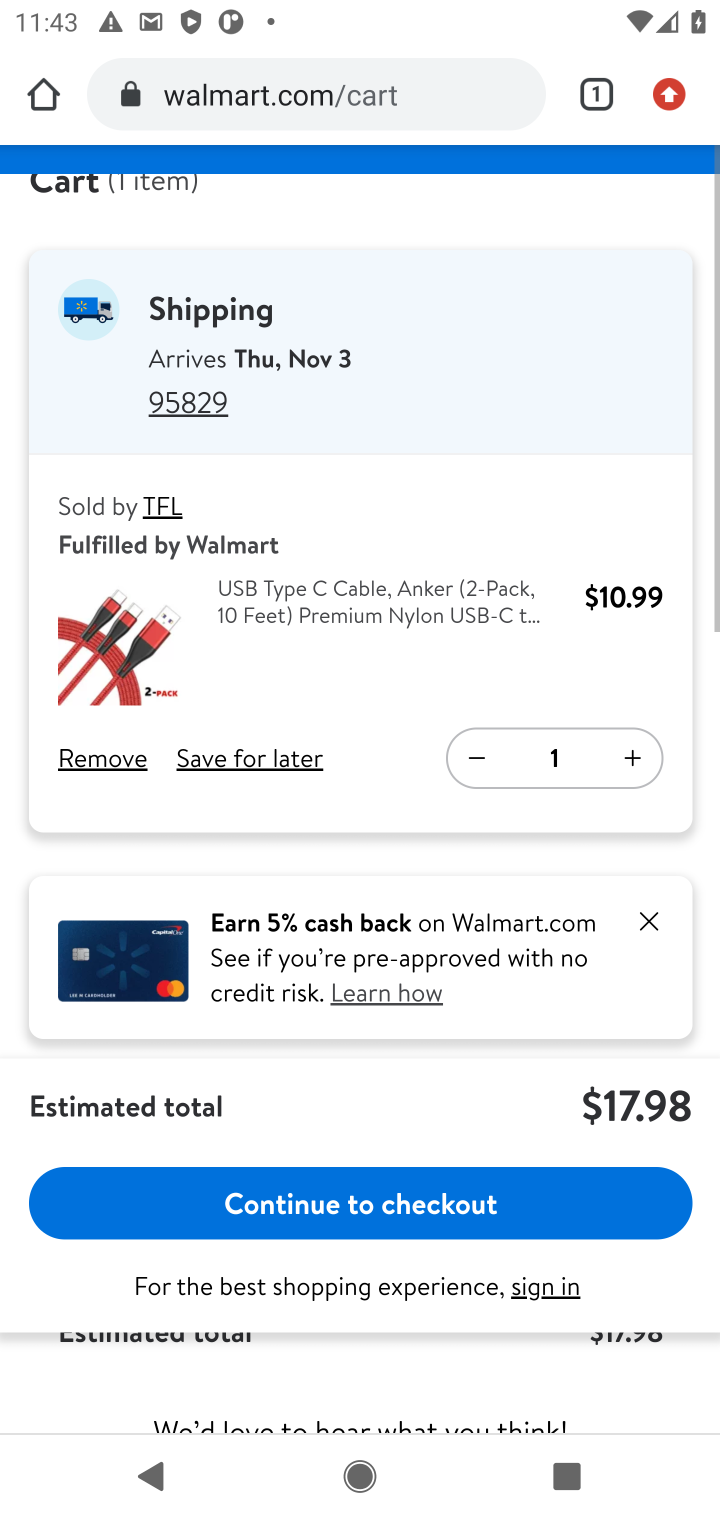
Step 30: click (638, 226)
Your task to perform on an android device: Search for usb-c to usb-a on walmart, select the first entry, add it to the cart, then select checkout. Image 31: 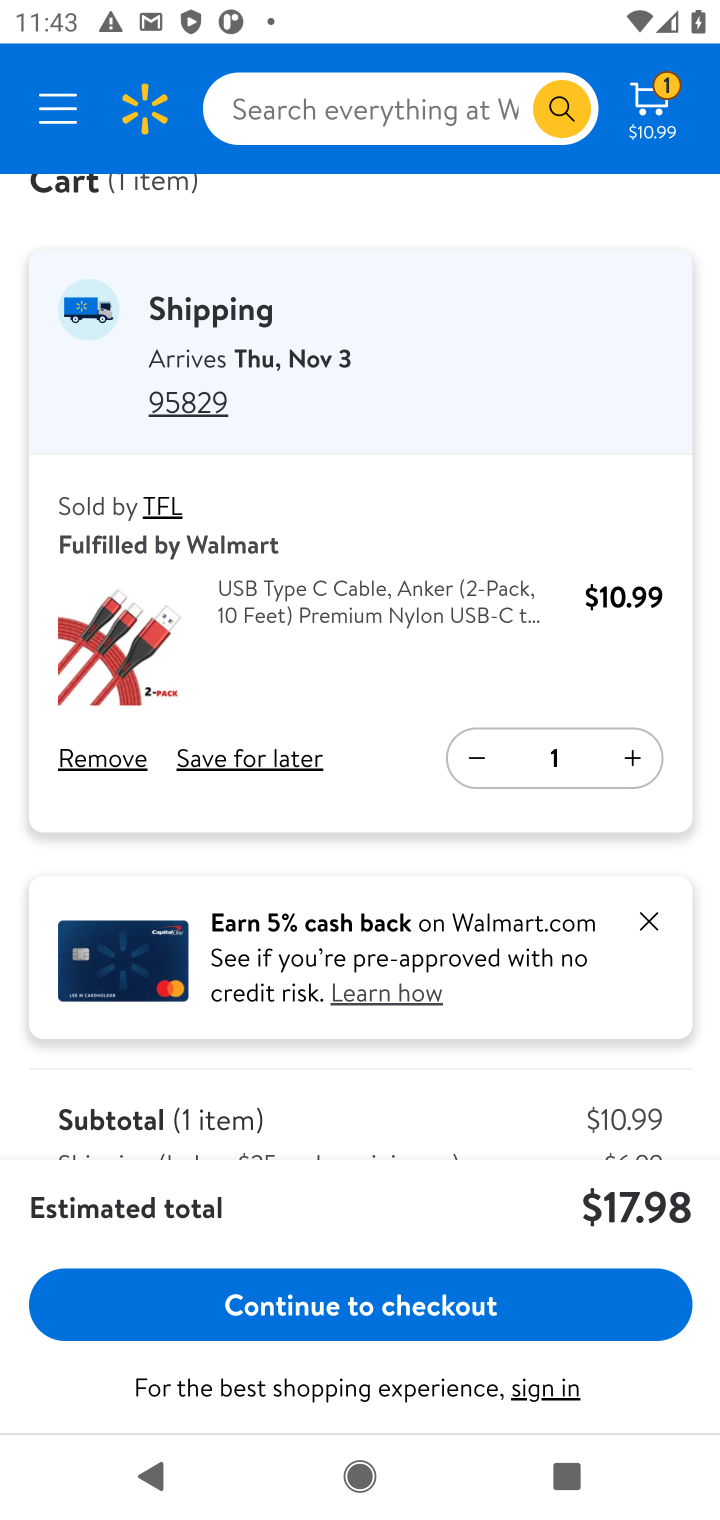
Step 31: click (678, 109)
Your task to perform on an android device: Search for usb-c to usb-a on walmart, select the first entry, add it to the cart, then select checkout. Image 32: 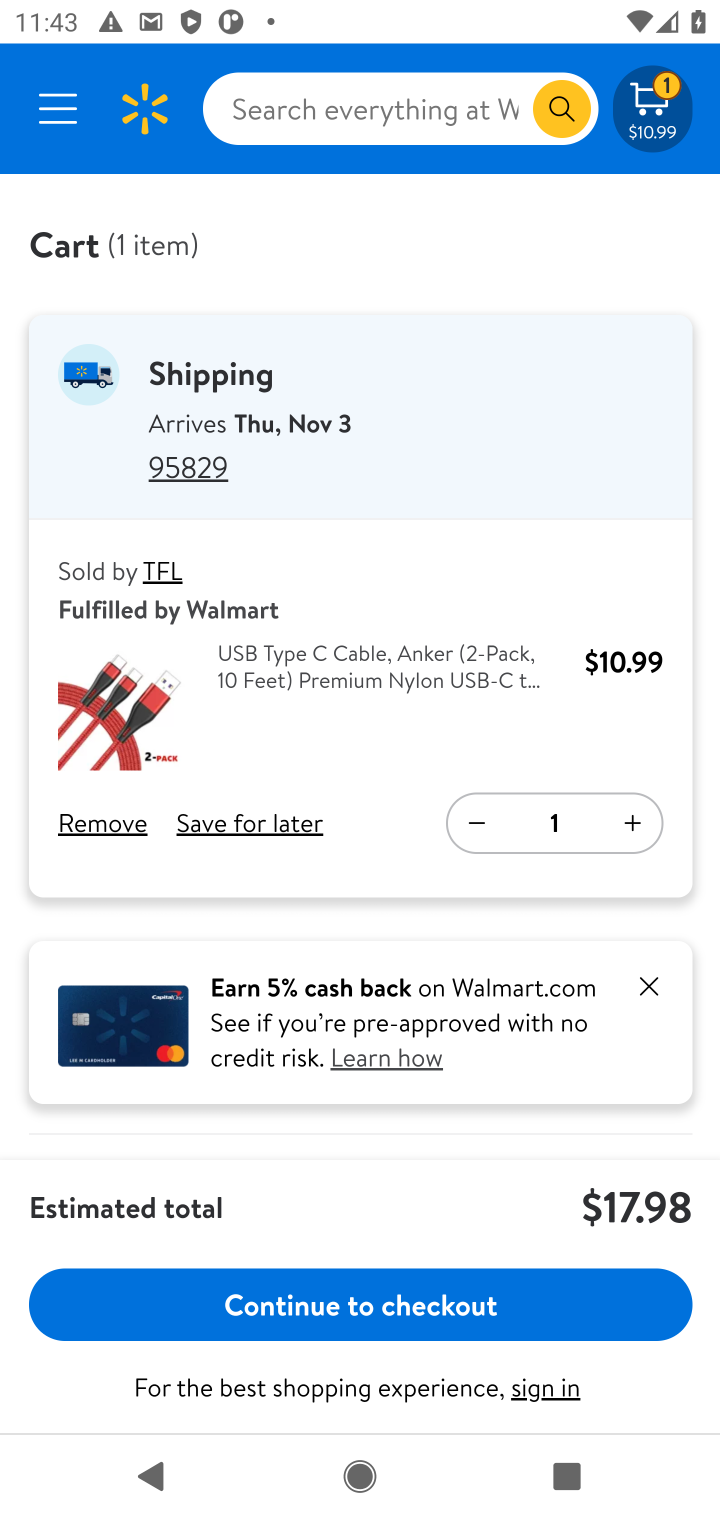
Step 32: click (414, 1339)
Your task to perform on an android device: Search for usb-c to usb-a on walmart, select the first entry, add it to the cart, then select checkout. Image 33: 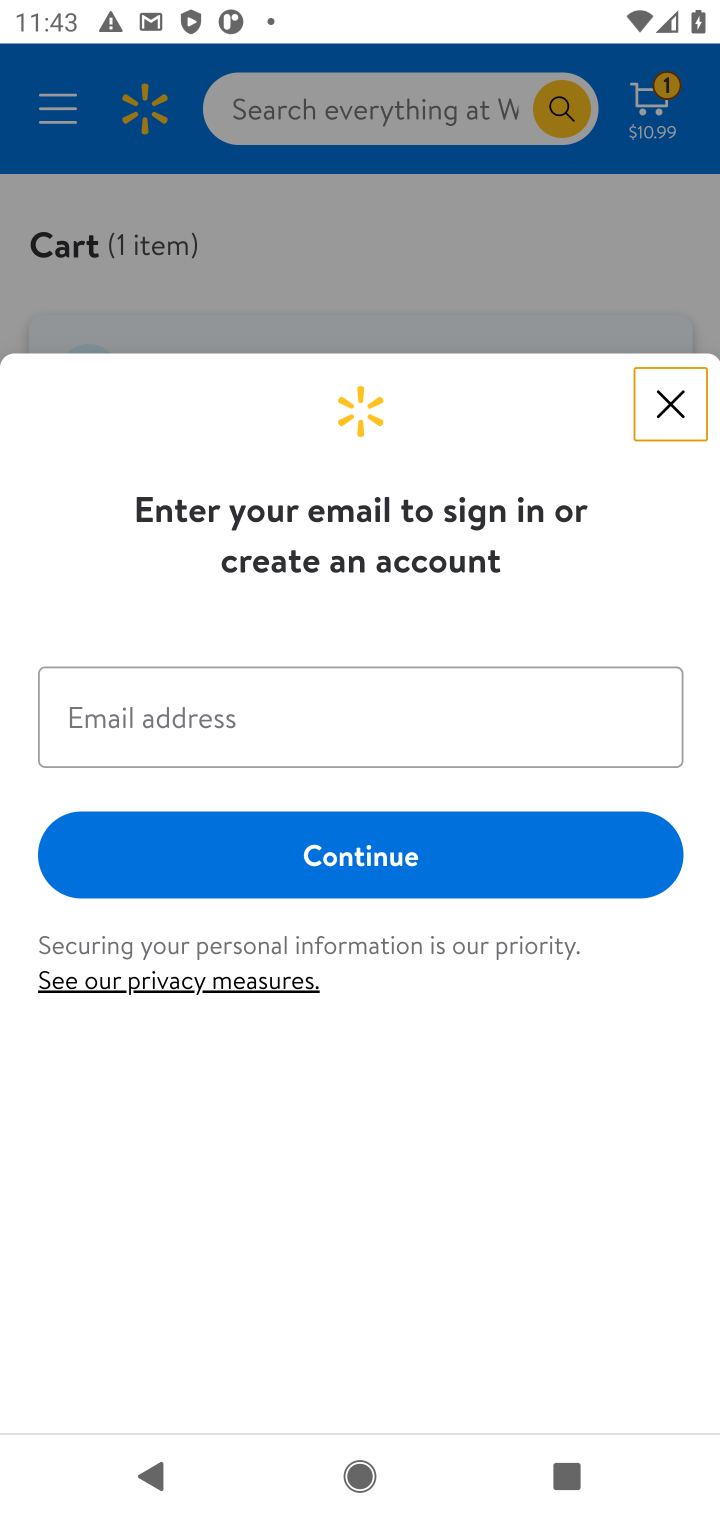
Step 33: click (680, 394)
Your task to perform on an android device: Search for usb-c to usb-a on walmart, select the first entry, add it to the cart, then select checkout. Image 34: 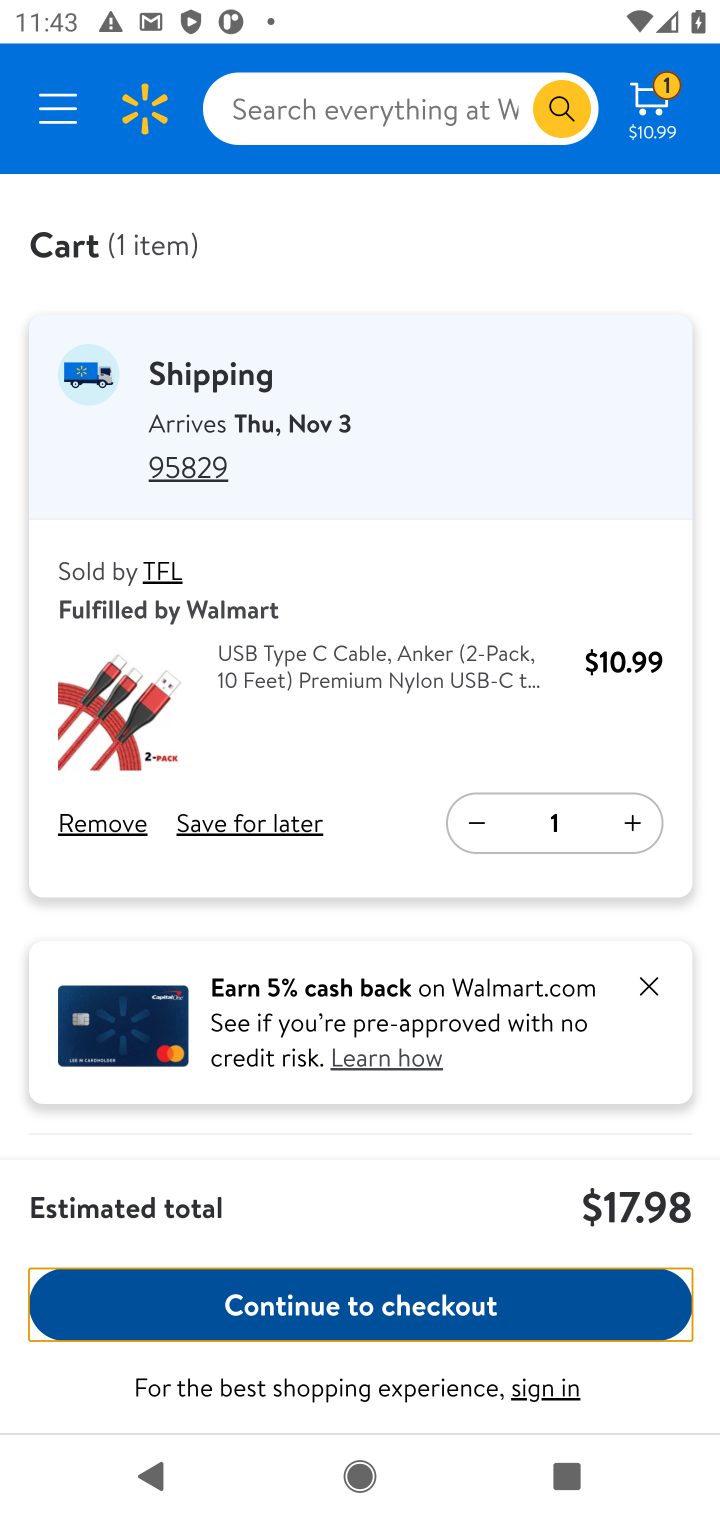
Step 34: task complete